Your task to perform on an android device: Look up the best rated headphones on Aliexpress Image 0: 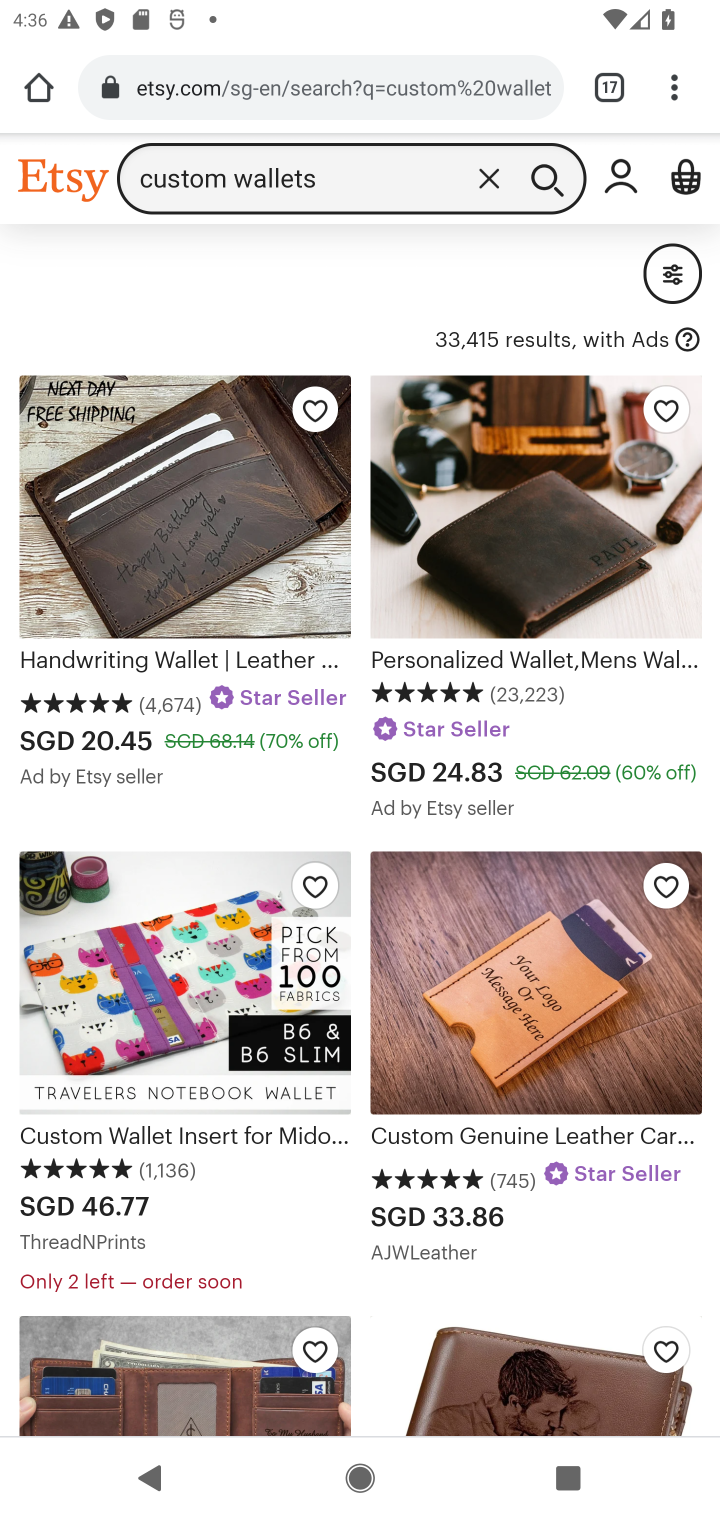
Step 0: press home button
Your task to perform on an android device: Look up the best rated headphones on Aliexpress Image 1: 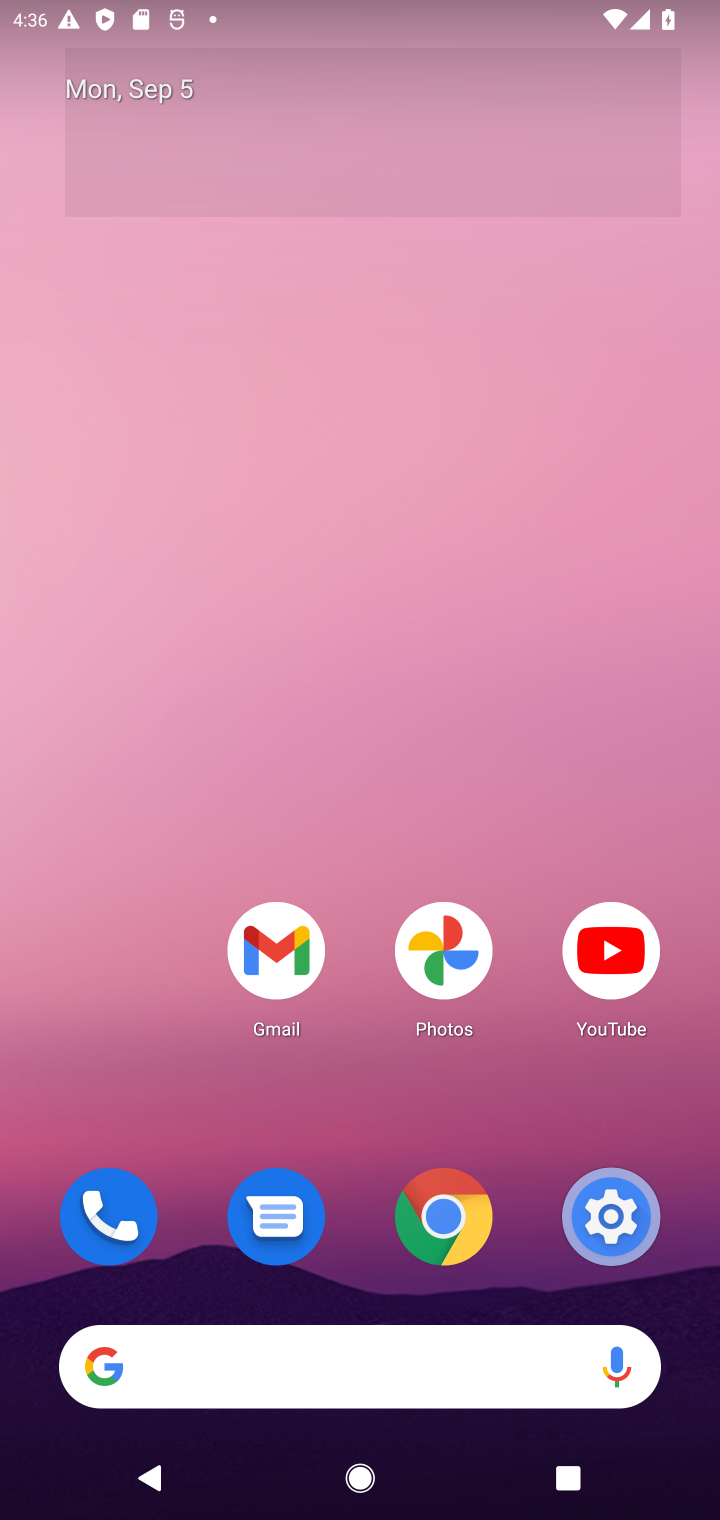
Step 1: click (103, 1367)
Your task to perform on an android device: Look up the best rated headphones on Aliexpress Image 2: 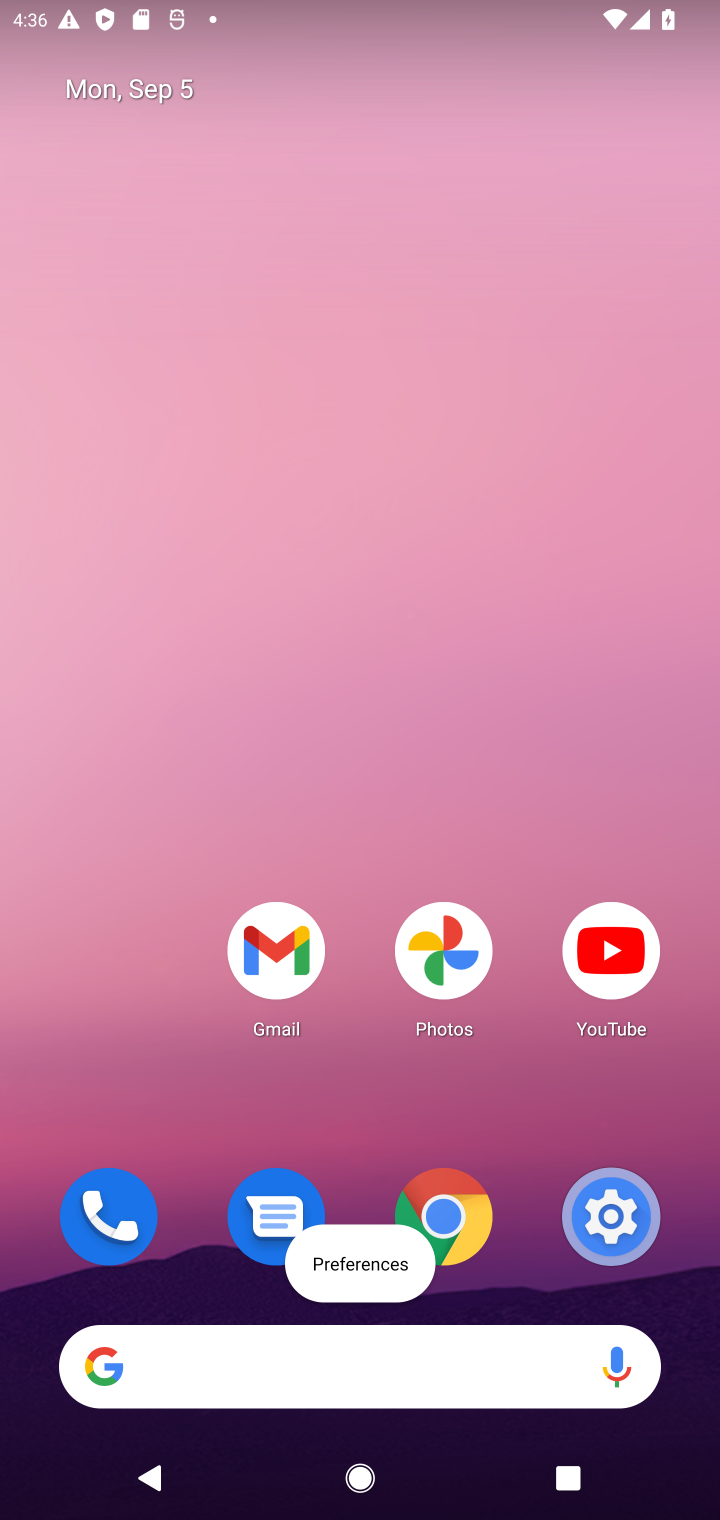
Step 2: click (95, 1382)
Your task to perform on an android device: Look up the best rated headphones on Aliexpress Image 3: 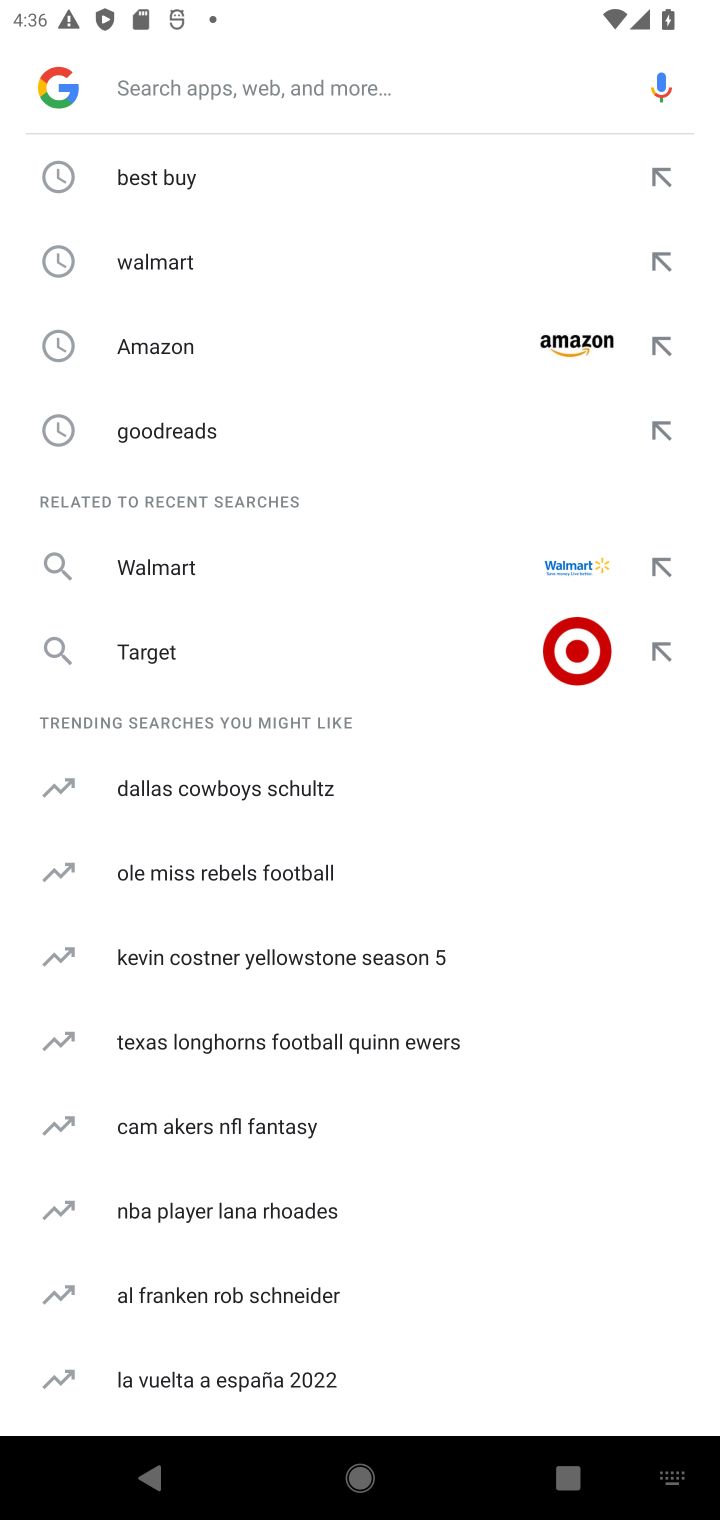
Step 3: type "Aliexpress"
Your task to perform on an android device: Look up the best rated headphones on Aliexpress Image 4: 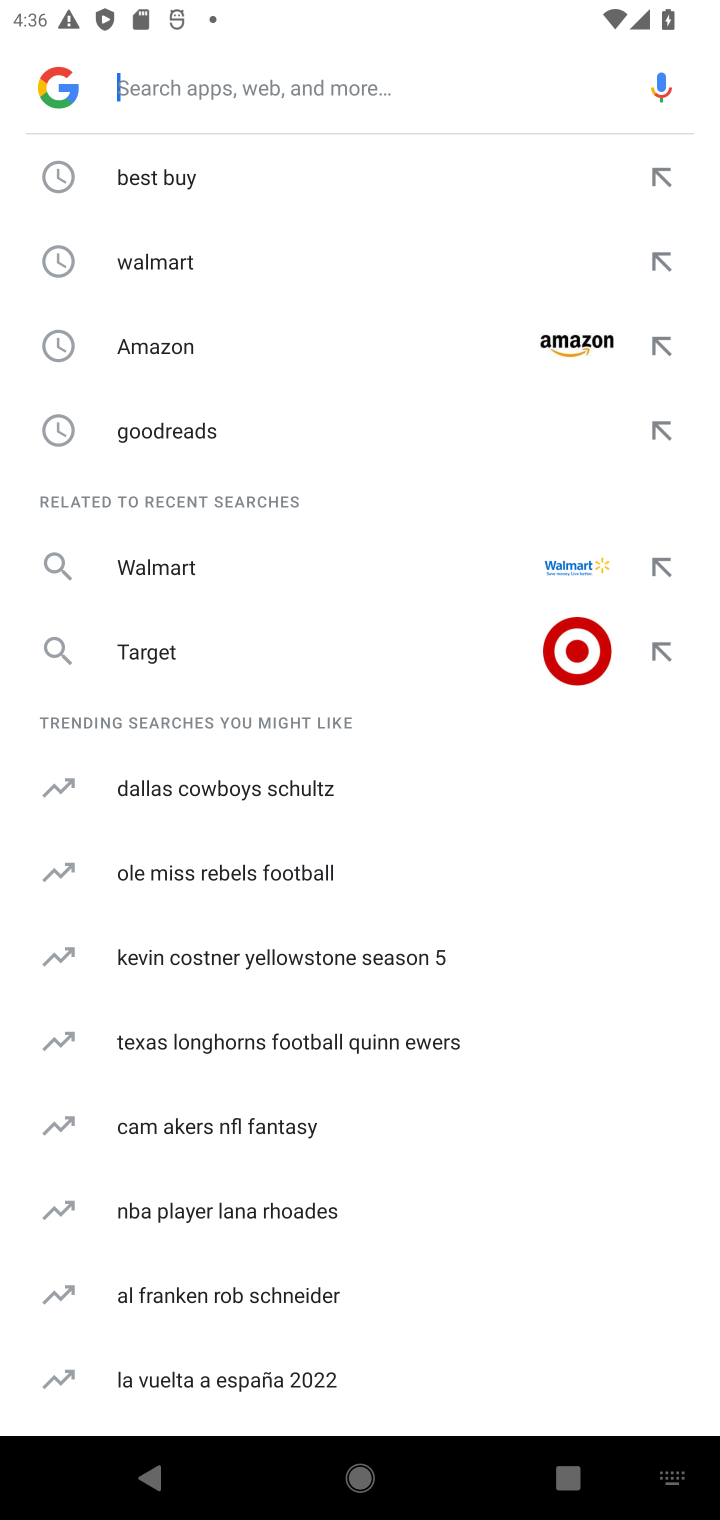
Step 4: click (201, 80)
Your task to perform on an android device: Look up the best rated headphones on Aliexpress Image 5: 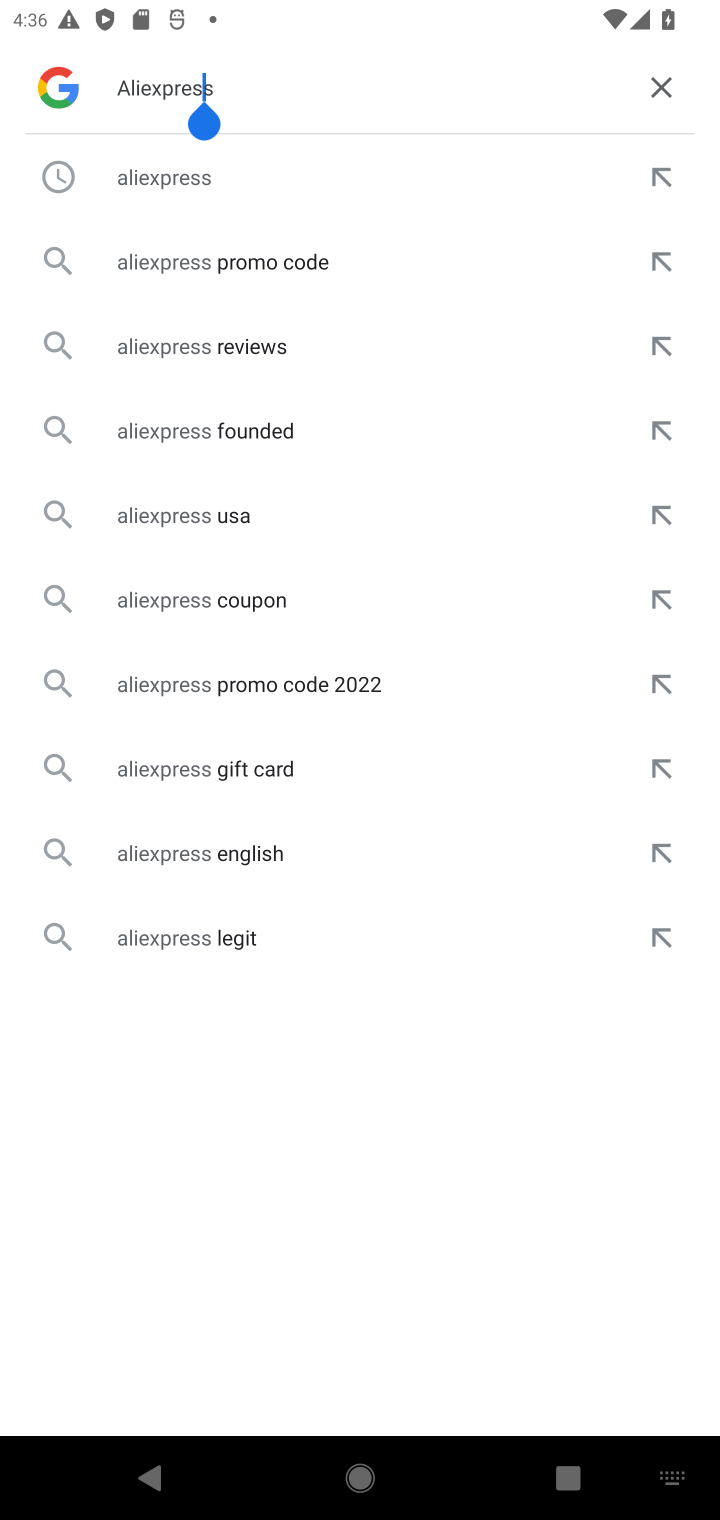
Step 5: press enter
Your task to perform on an android device: Look up the best rated headphones on Aliexpress Image 6: 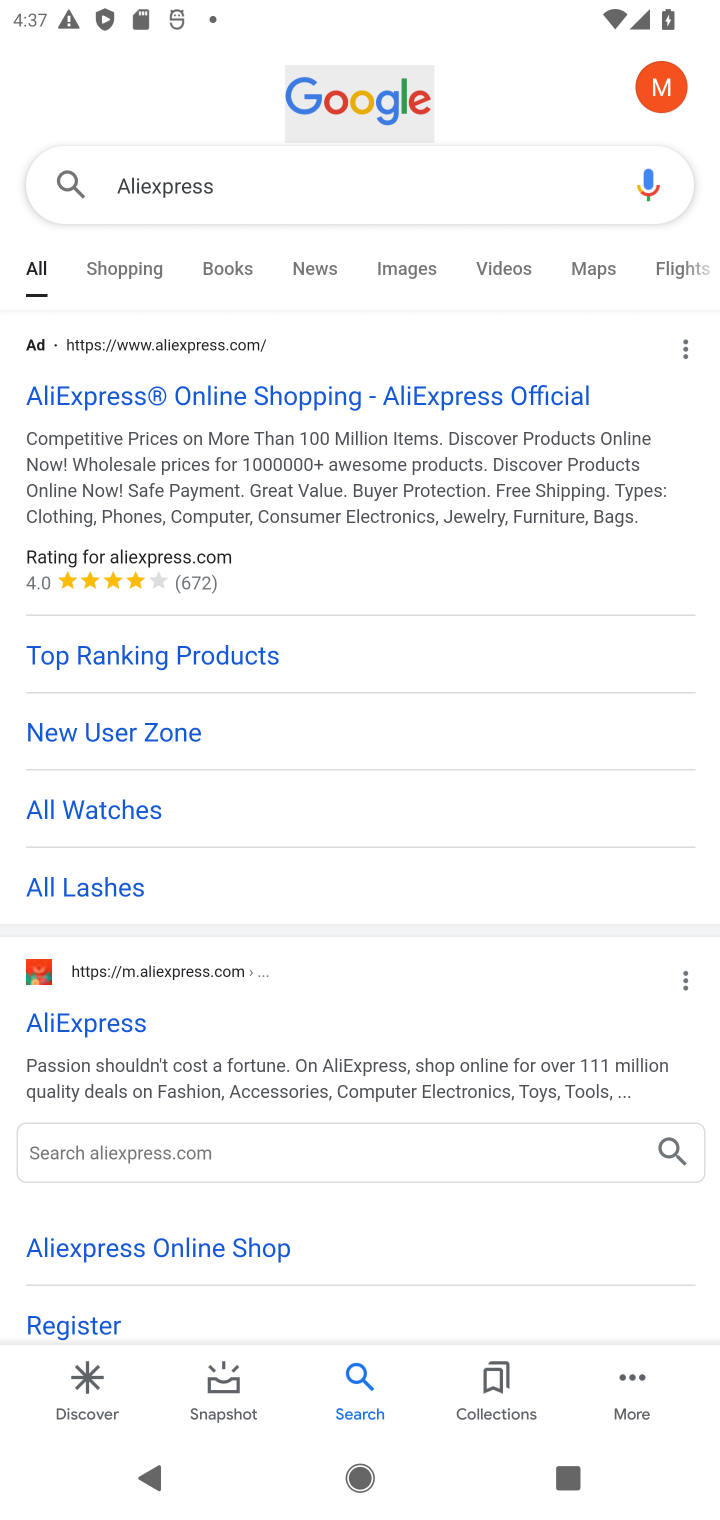
Step 6: click (78, 1028)
Your task to perform on an android device: Look up the best rated headphones on Aliexpress Image 7: 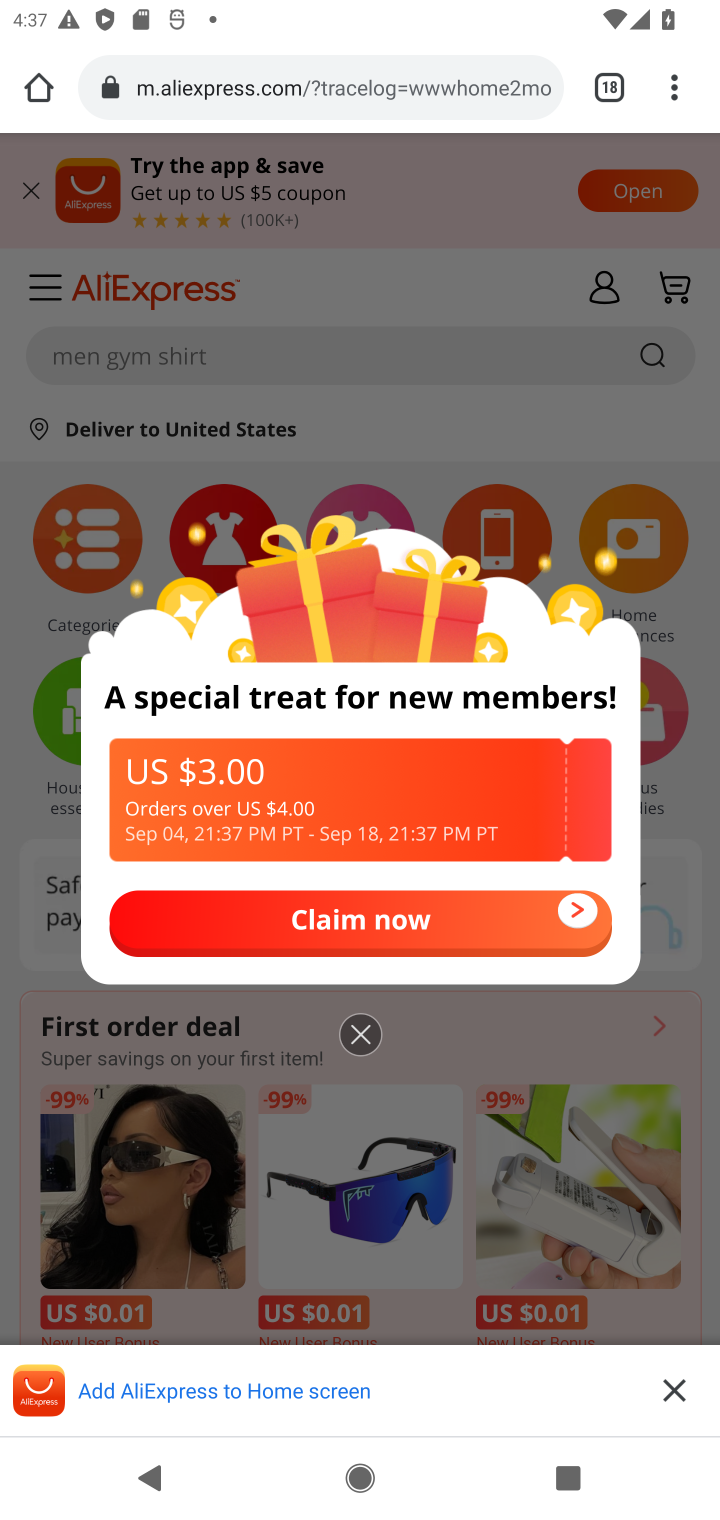
Step 7: click (349, 1035)
Your task to perform on an android device: Look up the best rated headphones on Aliexpress Image 8: 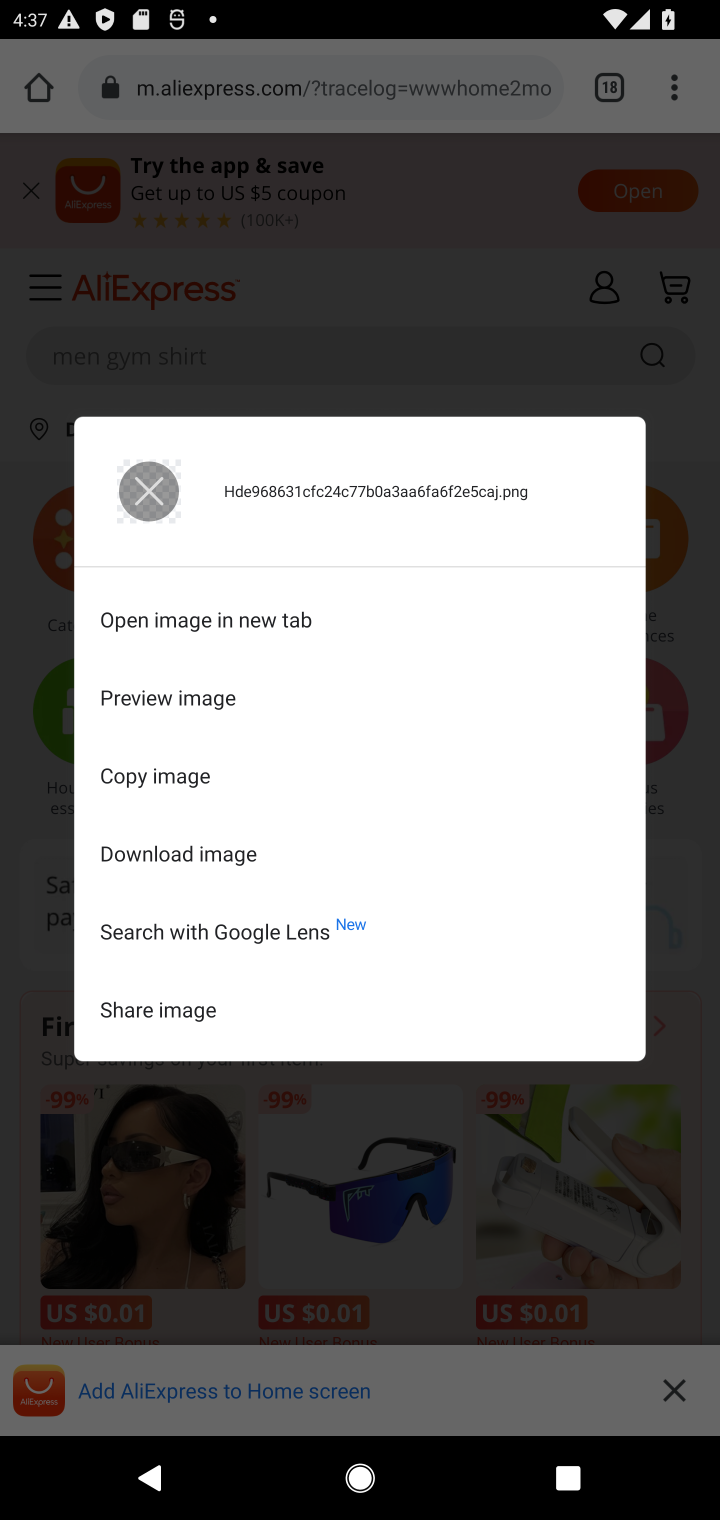
Step 8: click (154, 493)
Your task to perform on an android device: Look up the best rated headphones on Aliexpress Image 9: 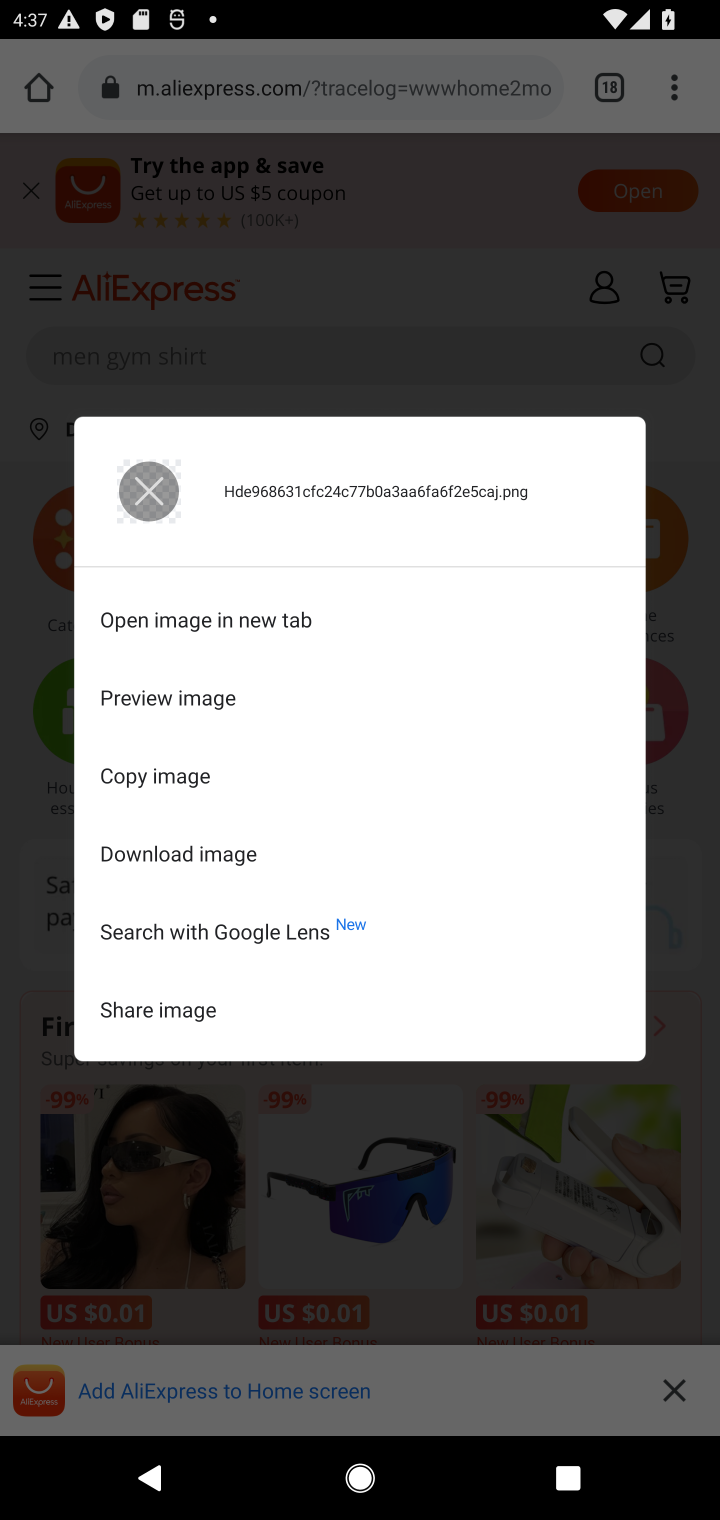
Step 9: press back button
Your task to perform on an android device: Look up the best rated headphones on Aliexpress Image 10: 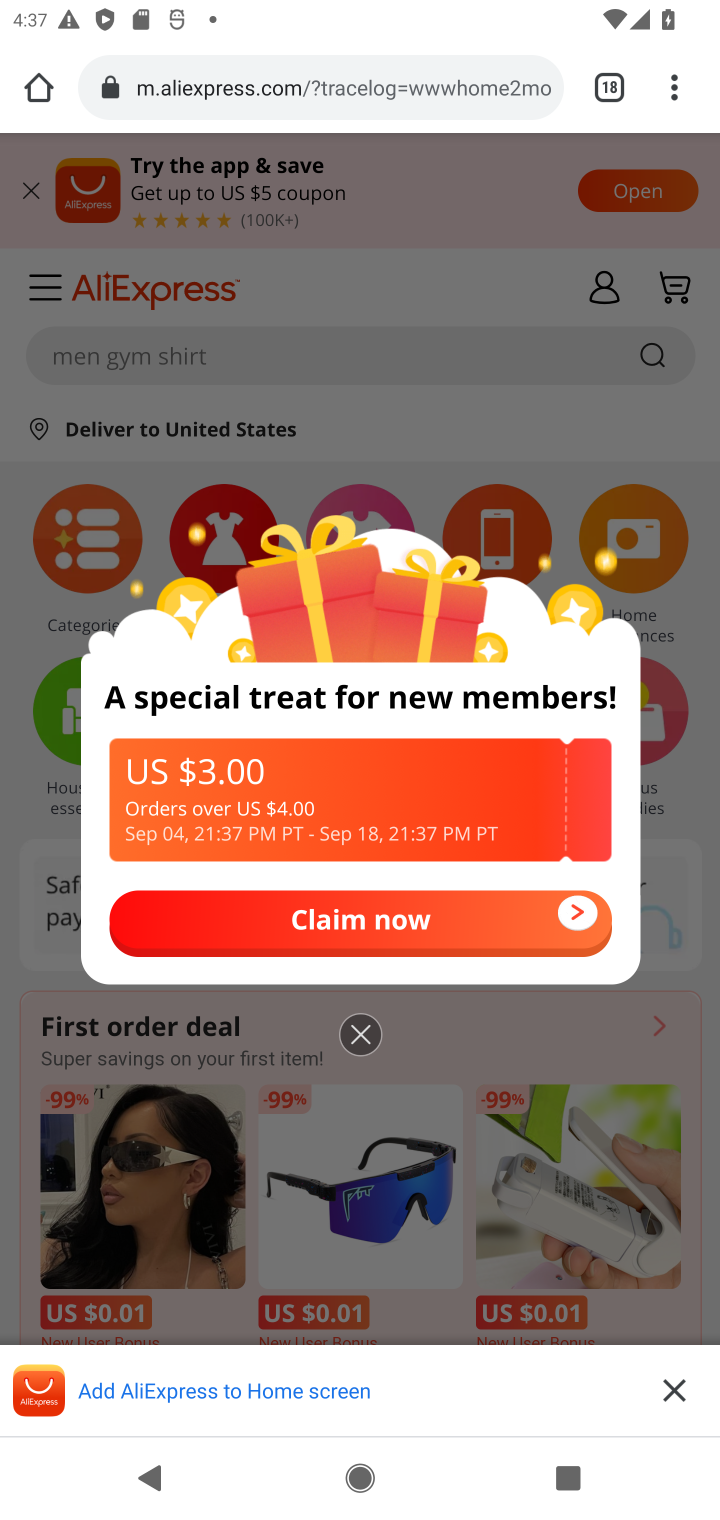
Step 10: click (356, 1040)
Your task to perform on an android device: Look up the best rated headphones on Aliexpress Image 11: 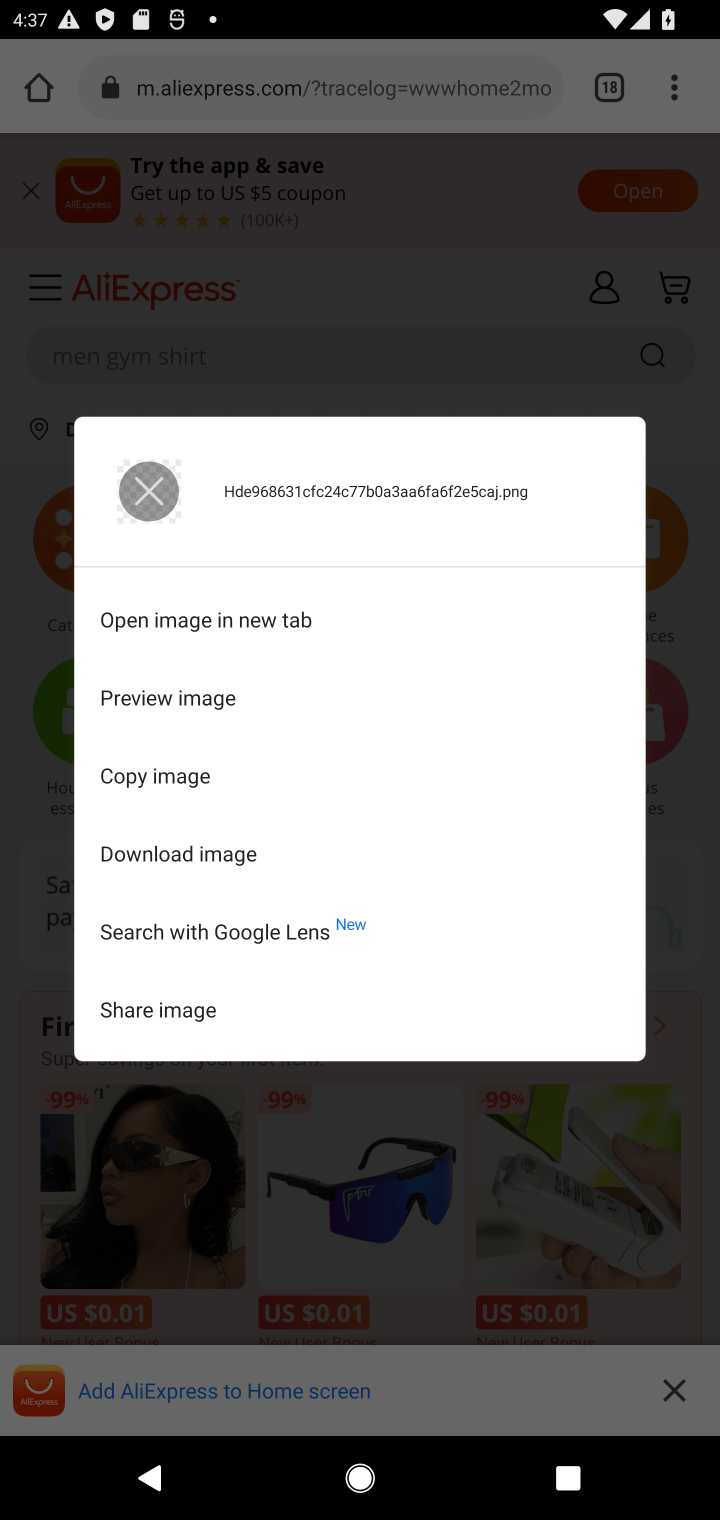
Step 11: click (466, 1161)
Your task to perform on an android device: Look up the best rated headphones on Aliexpress Image 12: 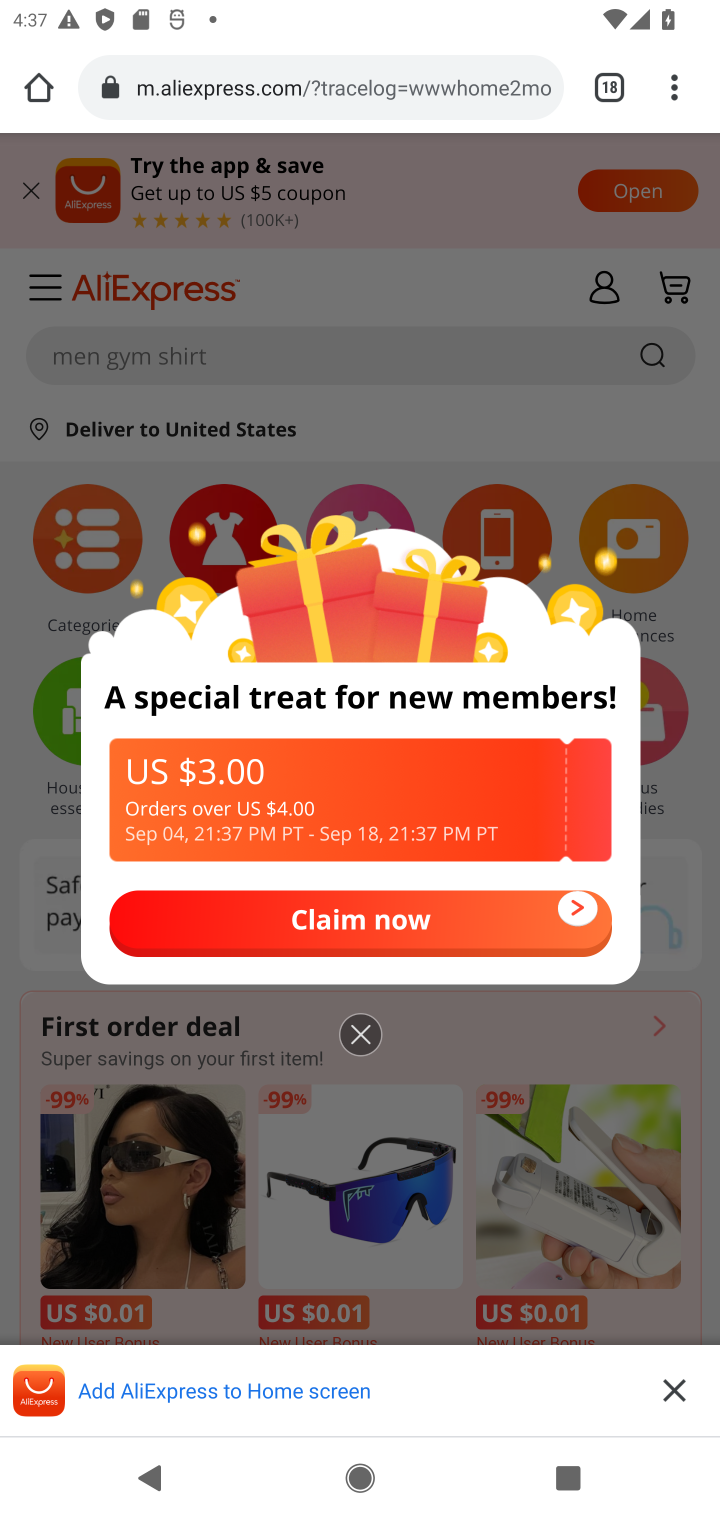
Step 12: click (358, 1043)
Your task to perform on an android device: Look up the best rated headphones on Aliexpress Image 13: 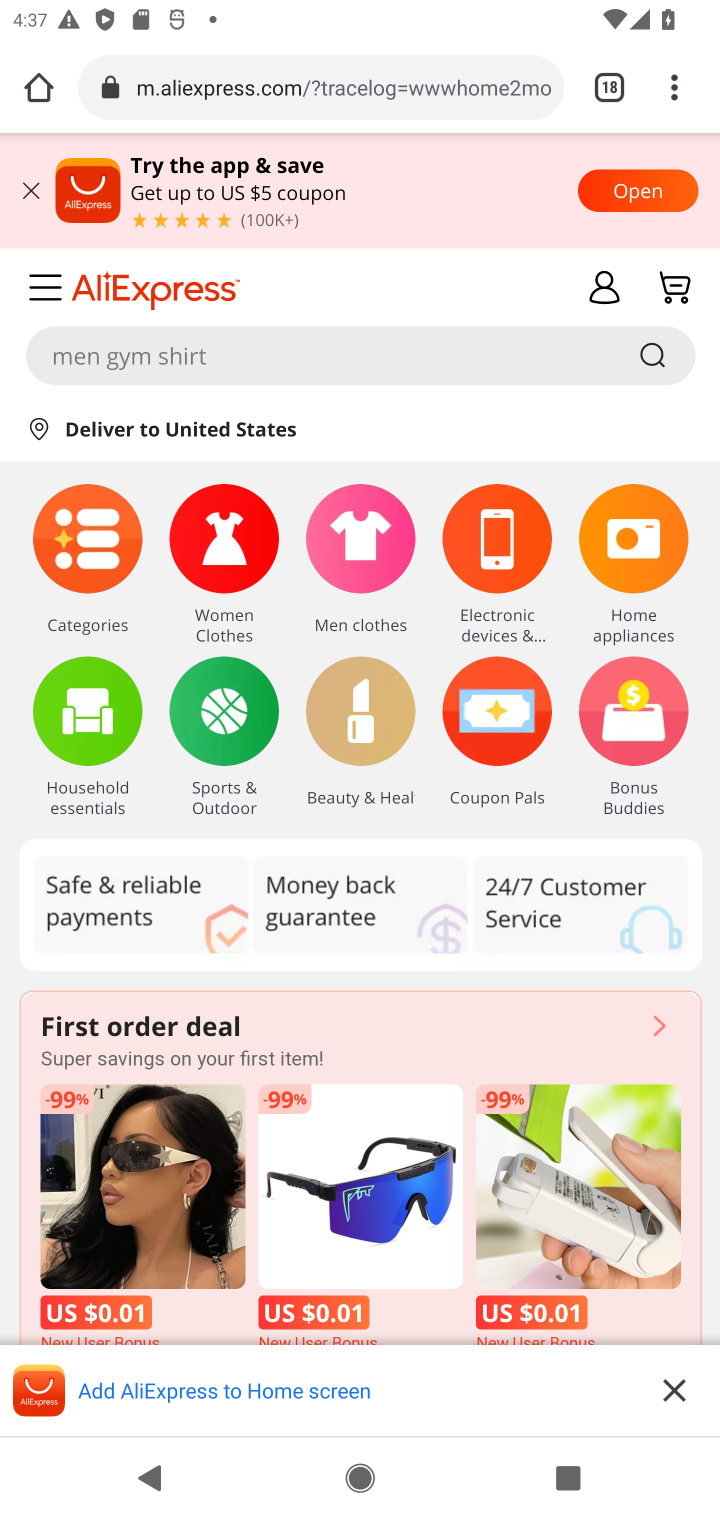
Step 13: click (225, 357)
Your task to perform on an android device: Look up the best rated headphones on Aliexpress Image 14: 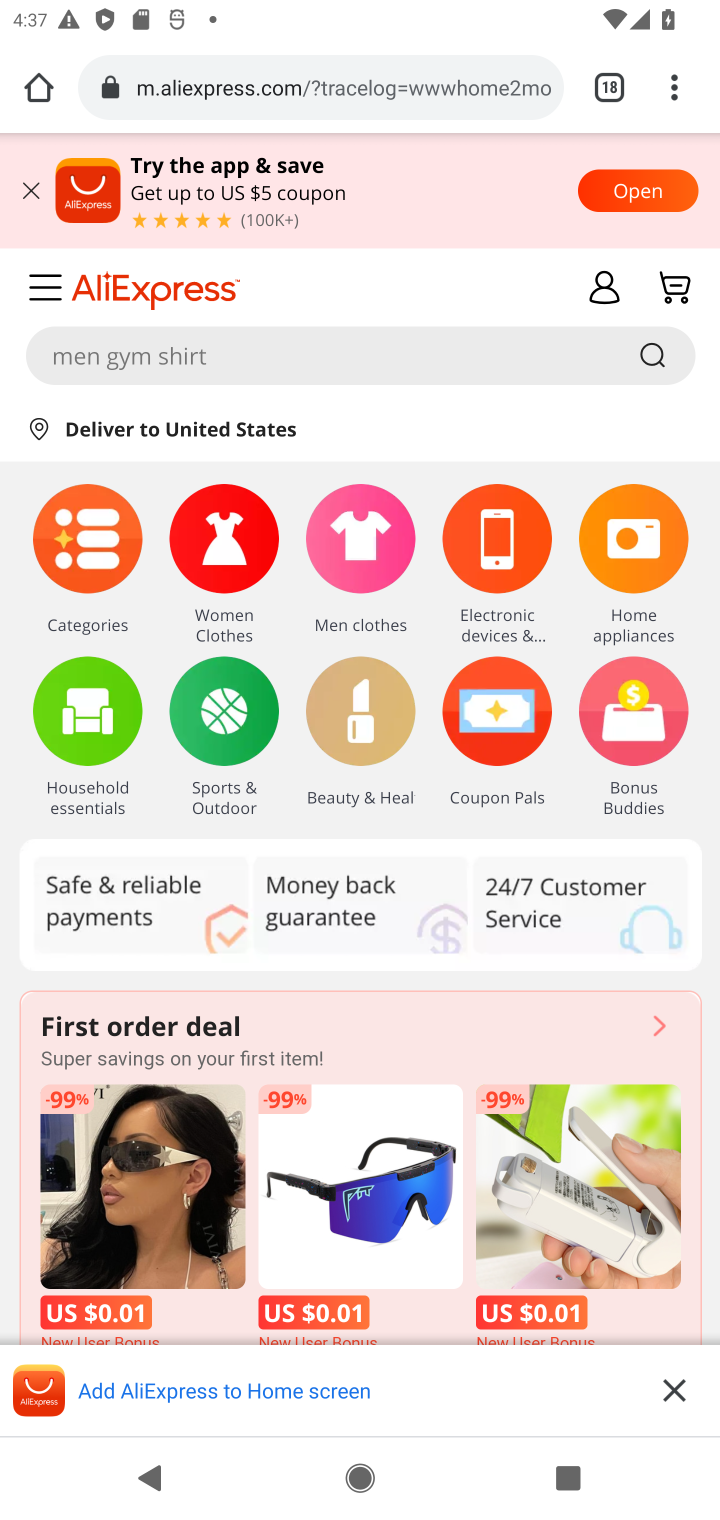
Step 14: click (481, 348)
Your task to perform on an android device: Look up the best rated headphones on Aliexpress Image 15: 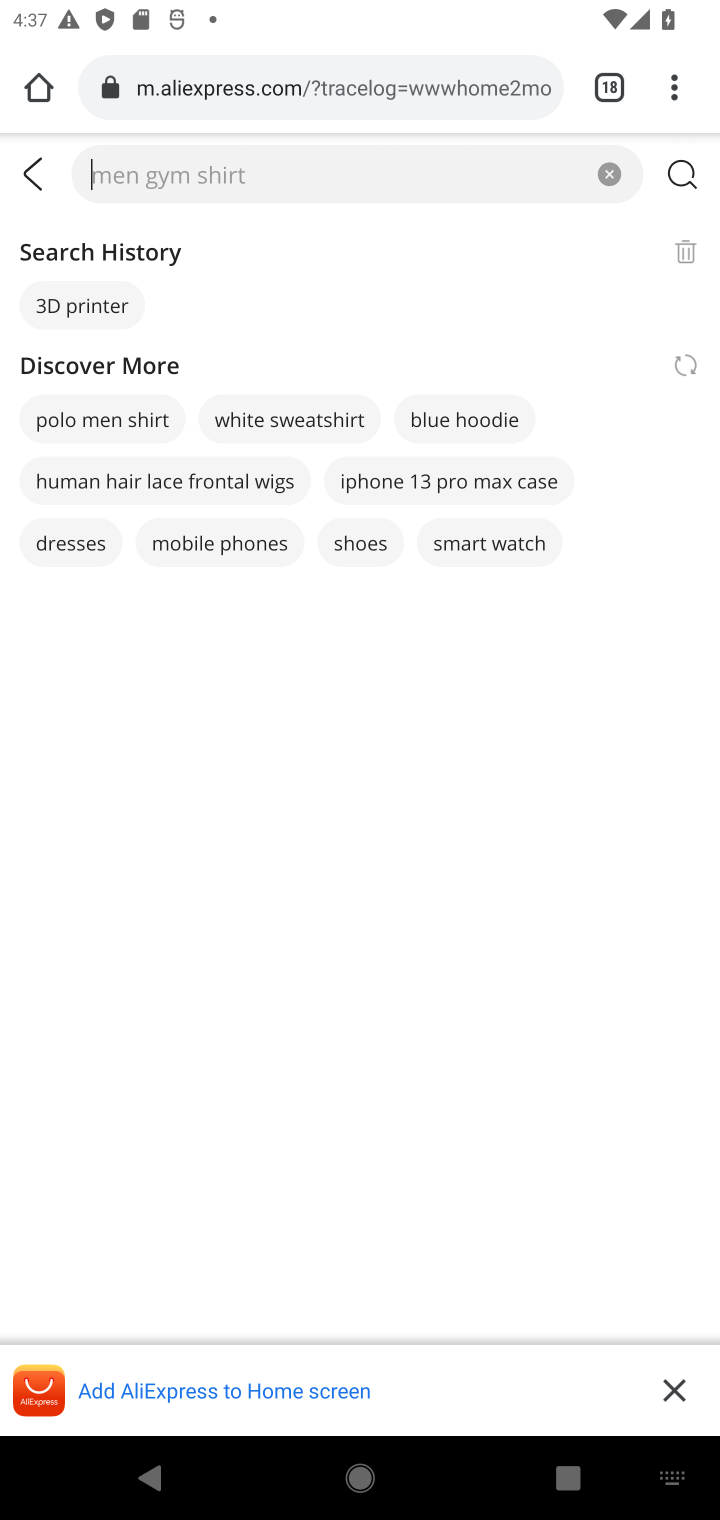
Step 15: click (206, 361)
Your task to perform on an android device: Look up the best rated headphones on Aliexpress Image 16: 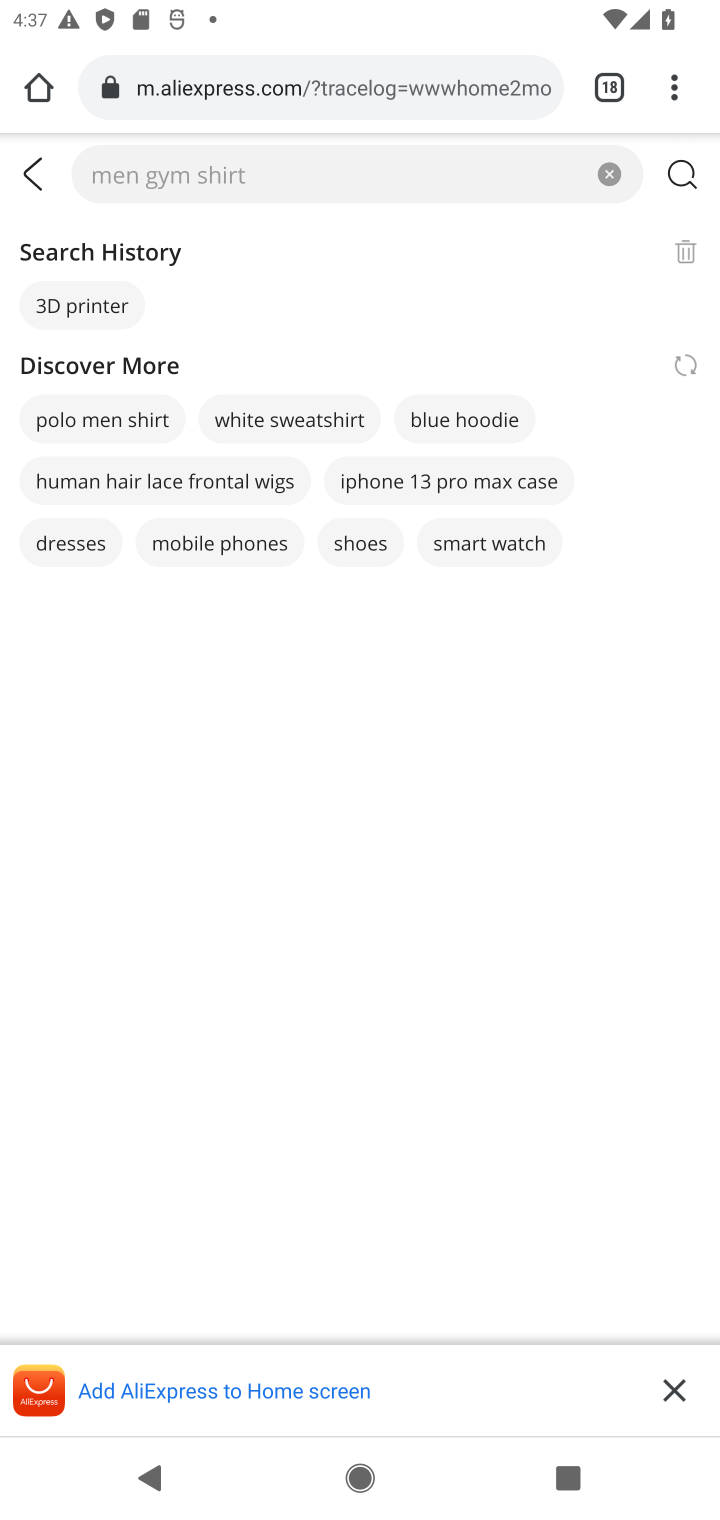
Step 16: click (138, 180)
Your task to perform on an android device: Look up the best rated headphones on Aliexpress Image 17: 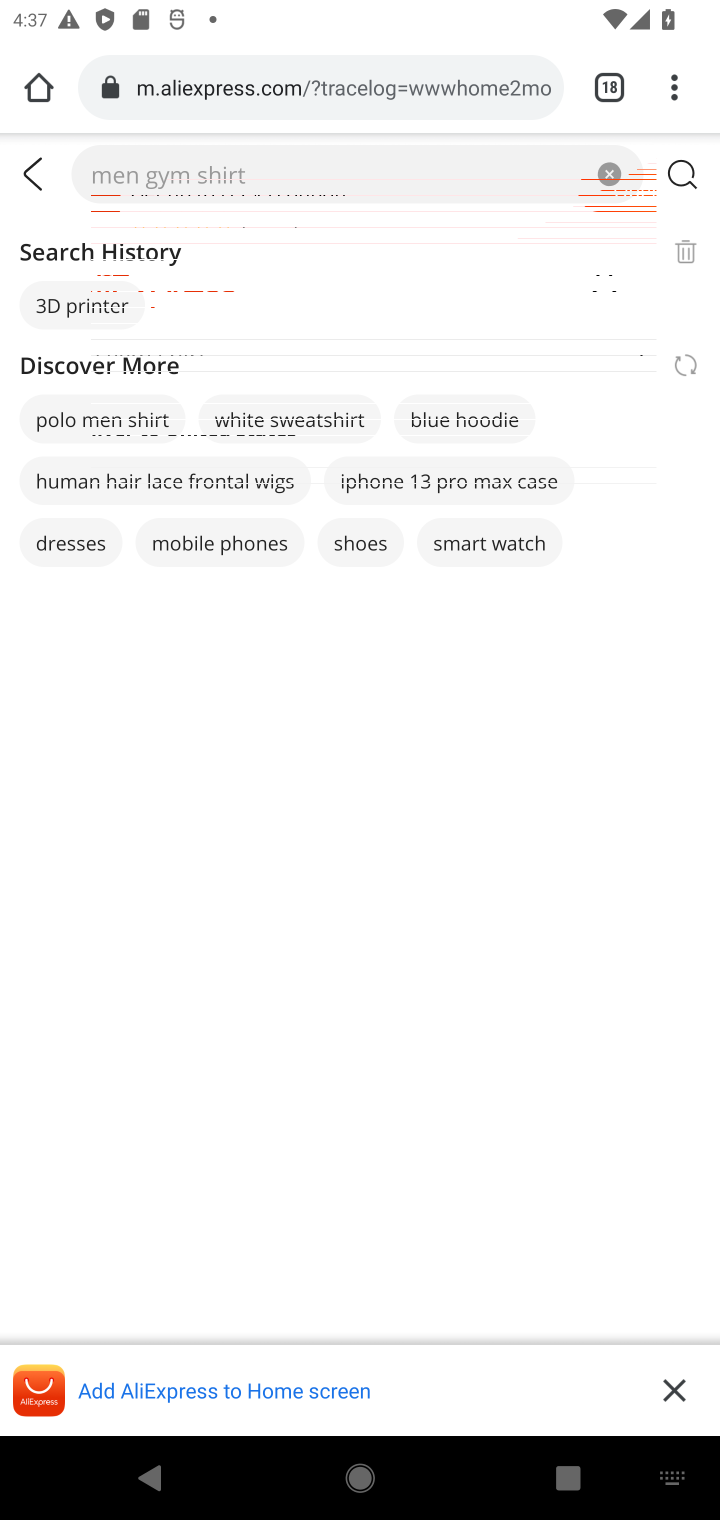
Step 17: type "headphones"
Your task to perform on an android device: Look up the best rated headphones on Aliexpress Image 18: 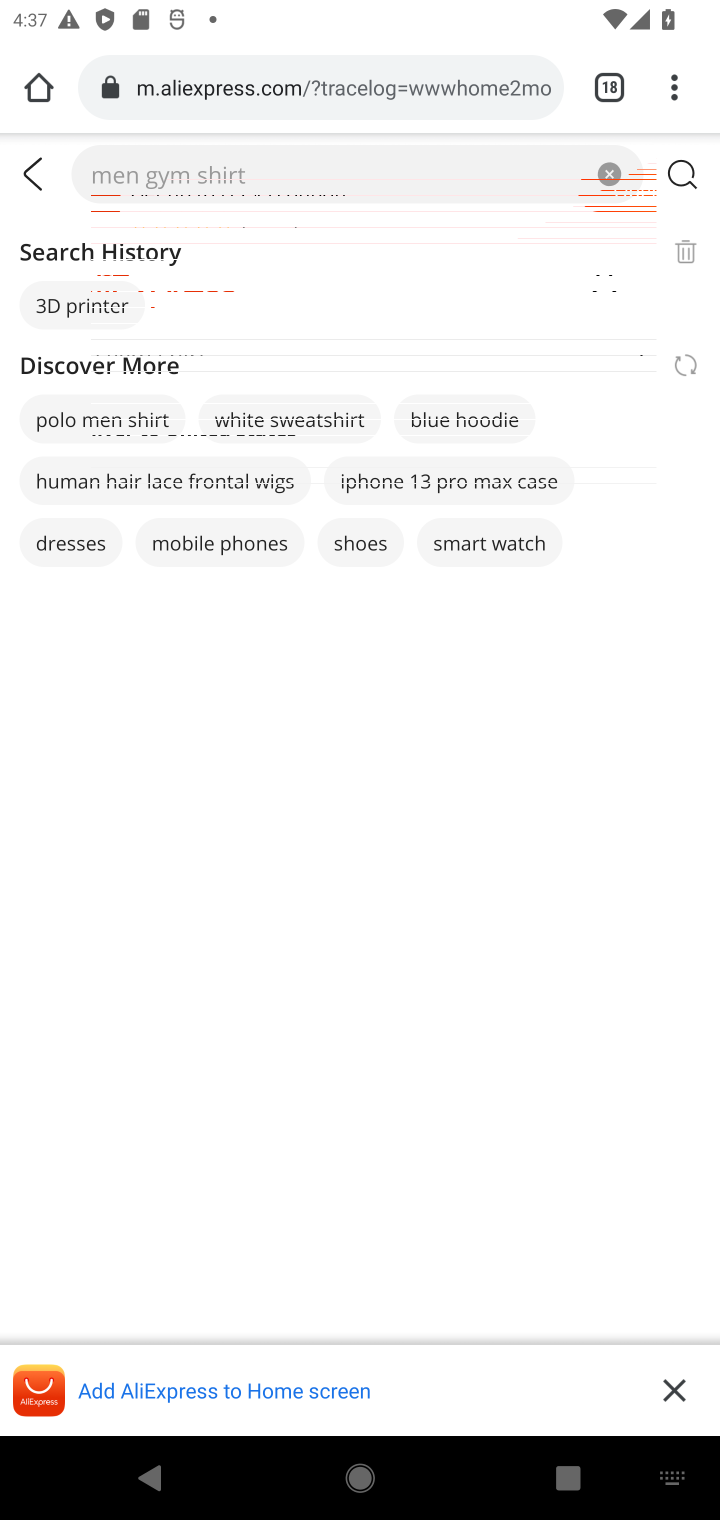
Step 18: click (151, 177)
Your task to perform on an android device: Look up the best rated headphones on Aliexpress Image 19: 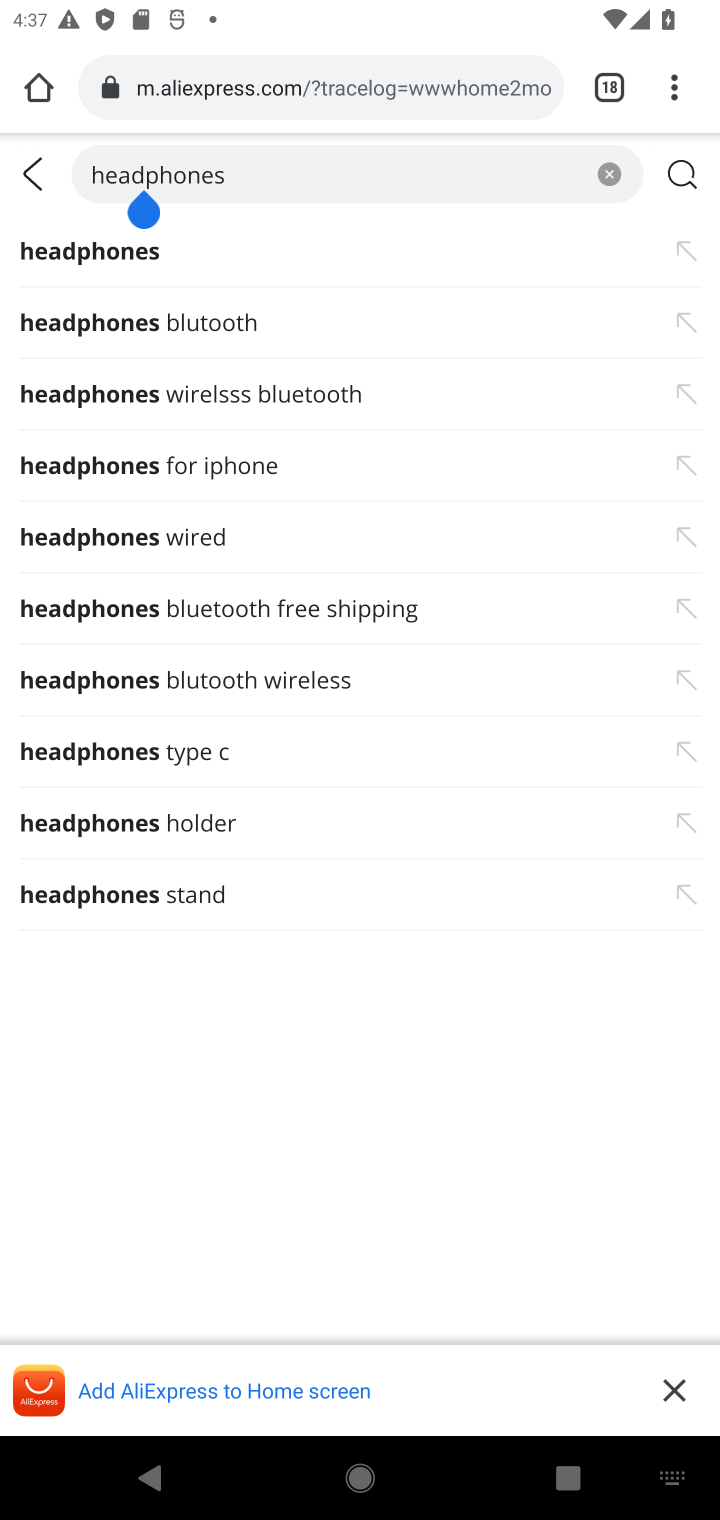
Step 19: press enter
Your task to perform on an android device: Look up the best rated headphones on Aliexpress Image 20: 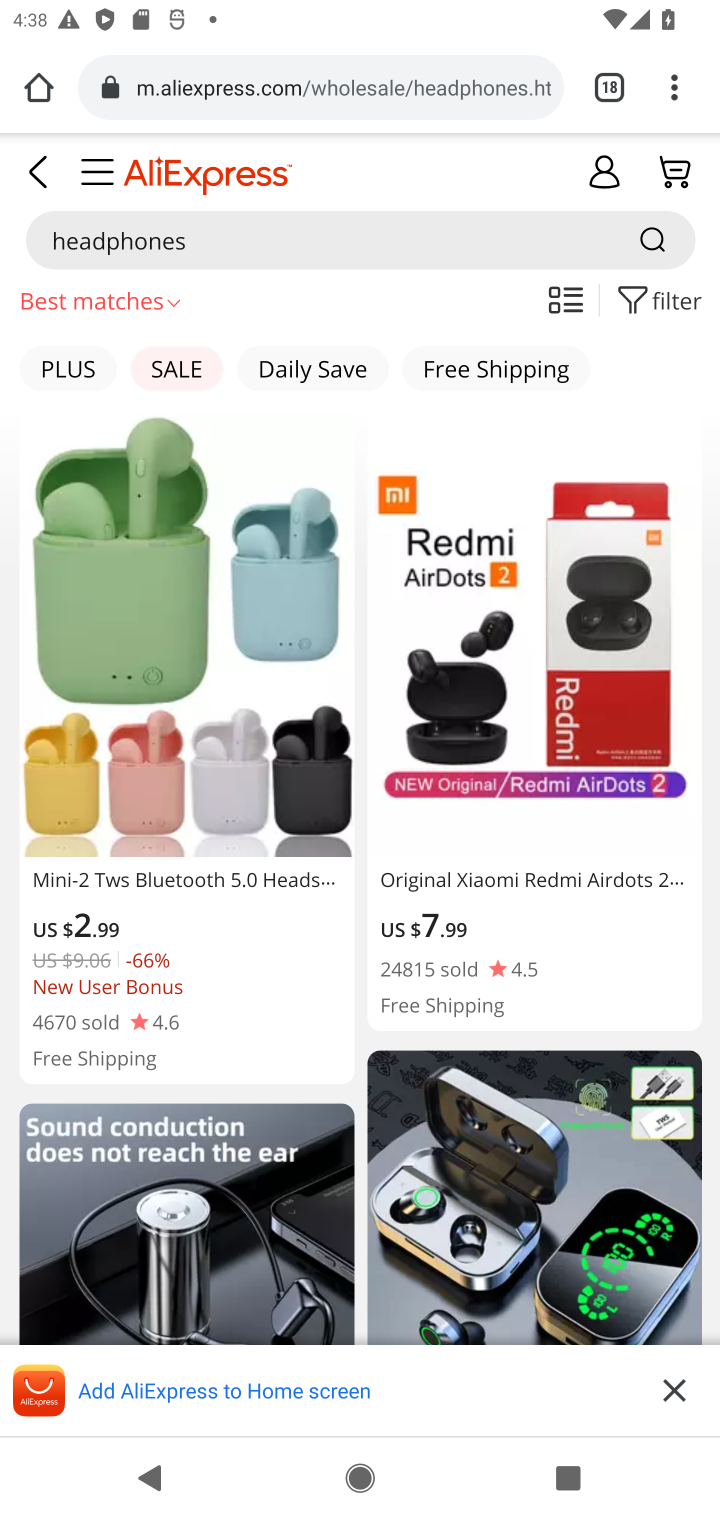
Step 20: click (656, 294)
Your task to perform on an android device: Look up the best rated headphones on Aliexpress Image 21: 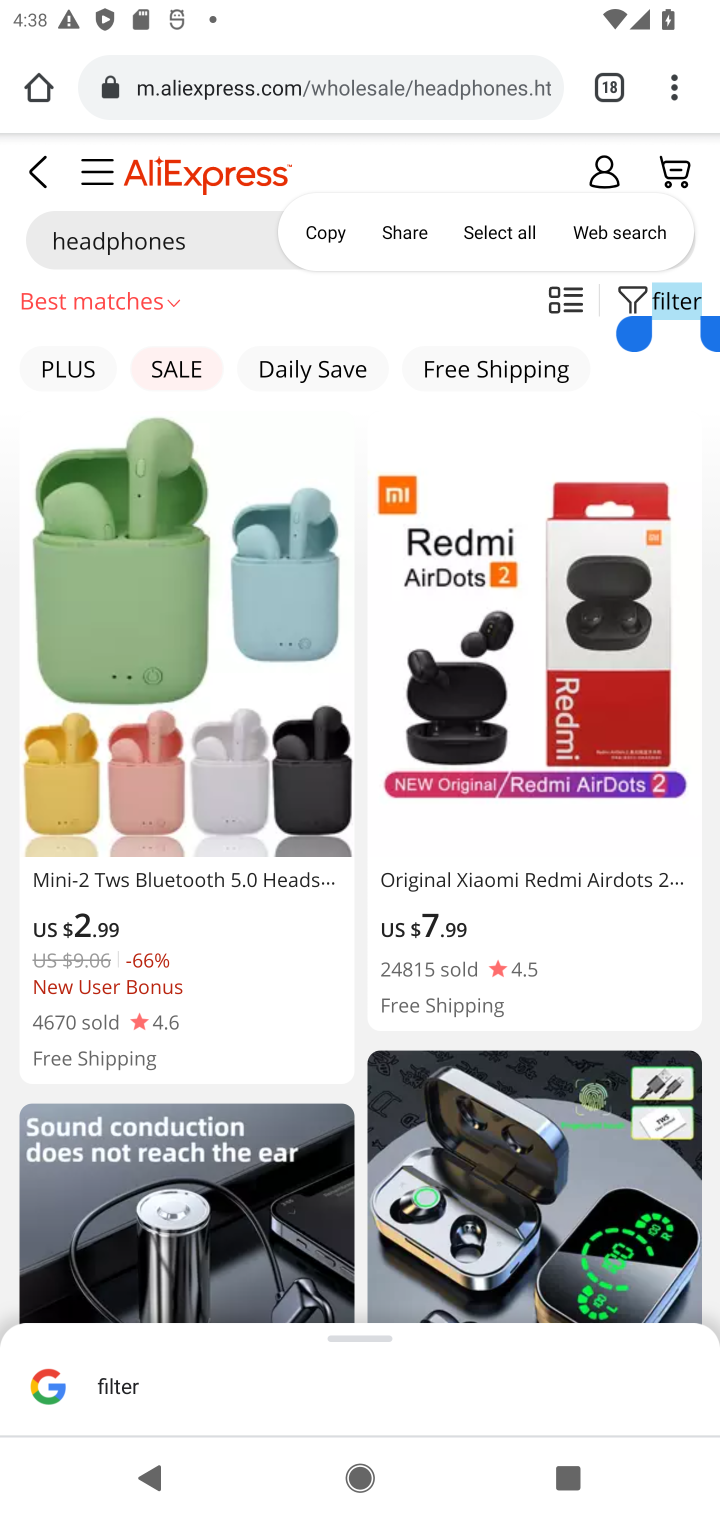
Step 21: click (646, 295)
Your task to perform on an android device: Look up the best rated headphones on Aliexpress Image 22: 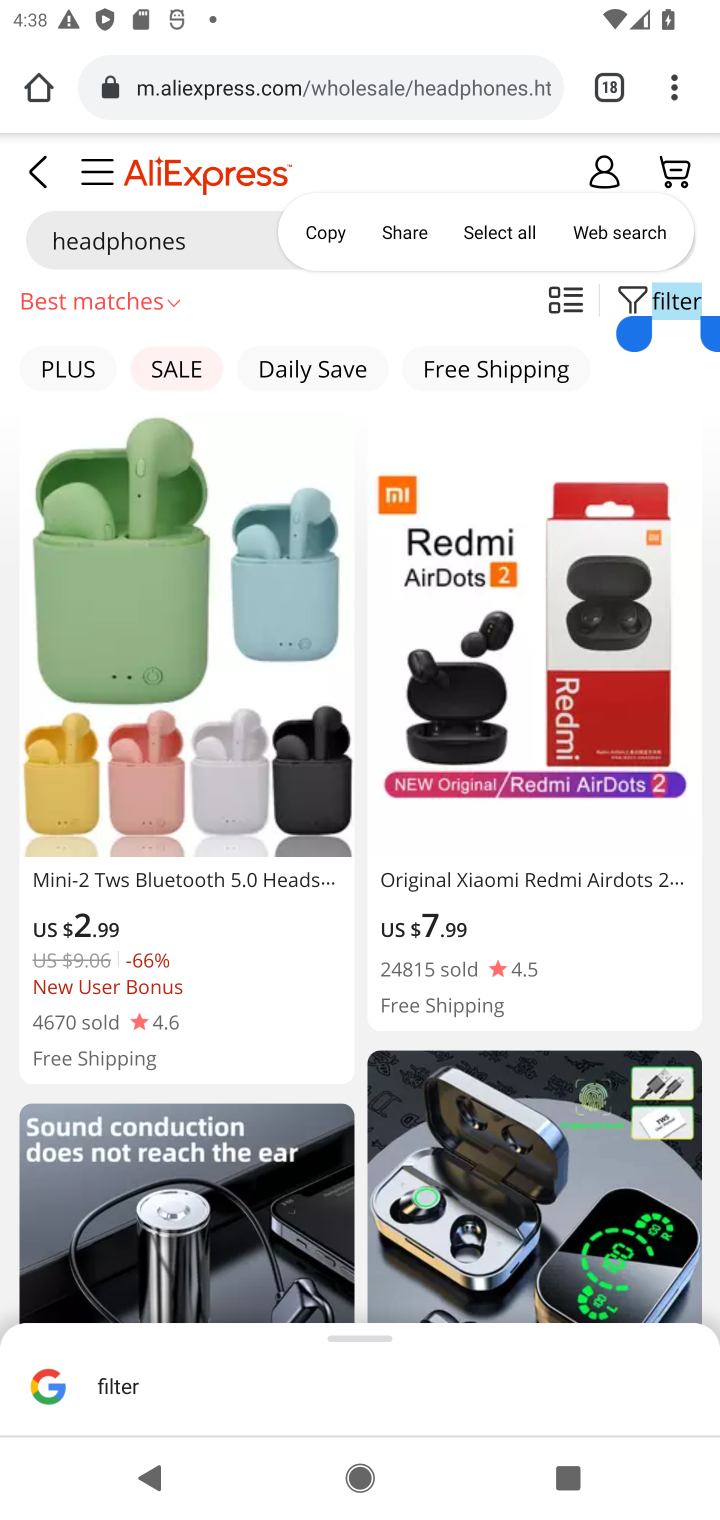
Step 22: click (409, 286)
Your task to perform on an android device: Look up the best rated headphones on Aliexpress Image 23: 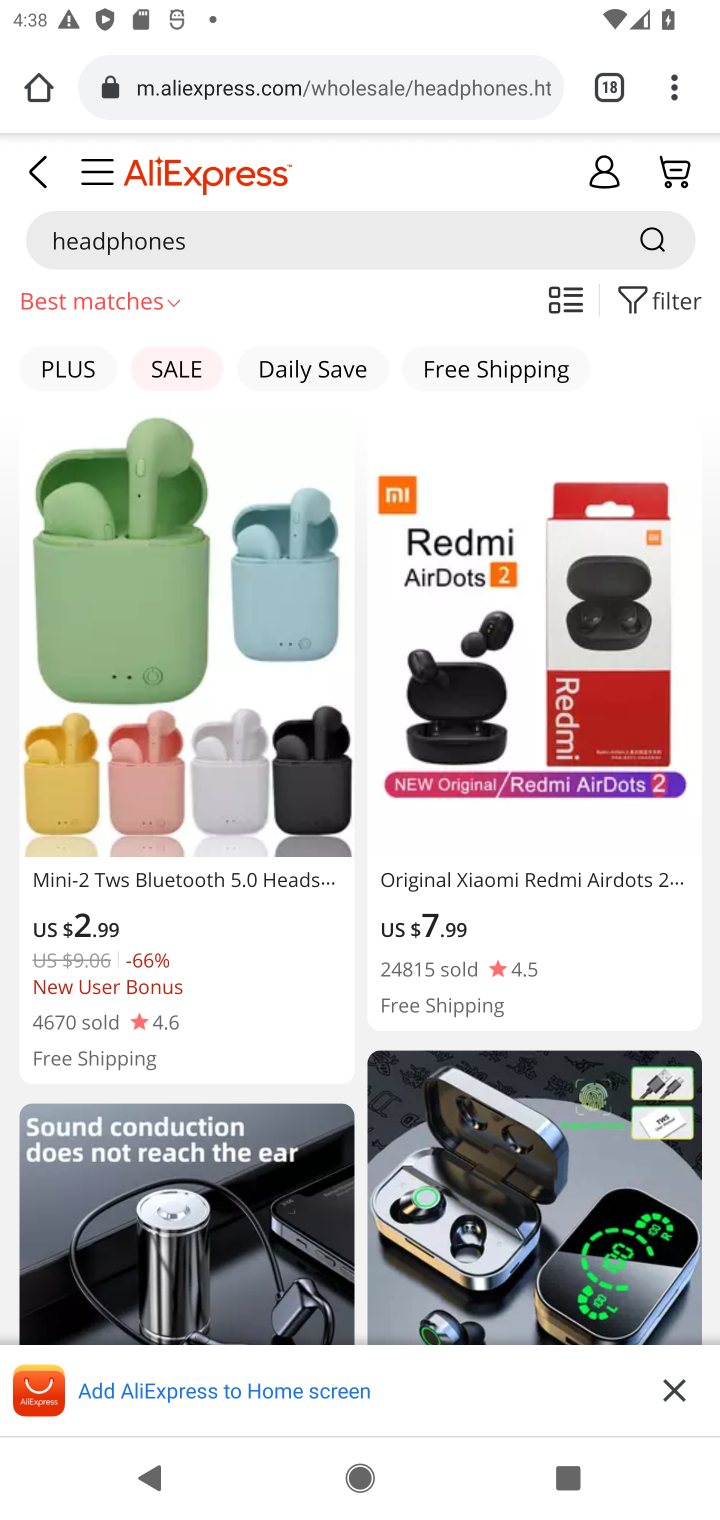
Step 23: click (685, 308)
Your task to perform on an android device: Look up the best rated headphones on Aliexpress Image 24: 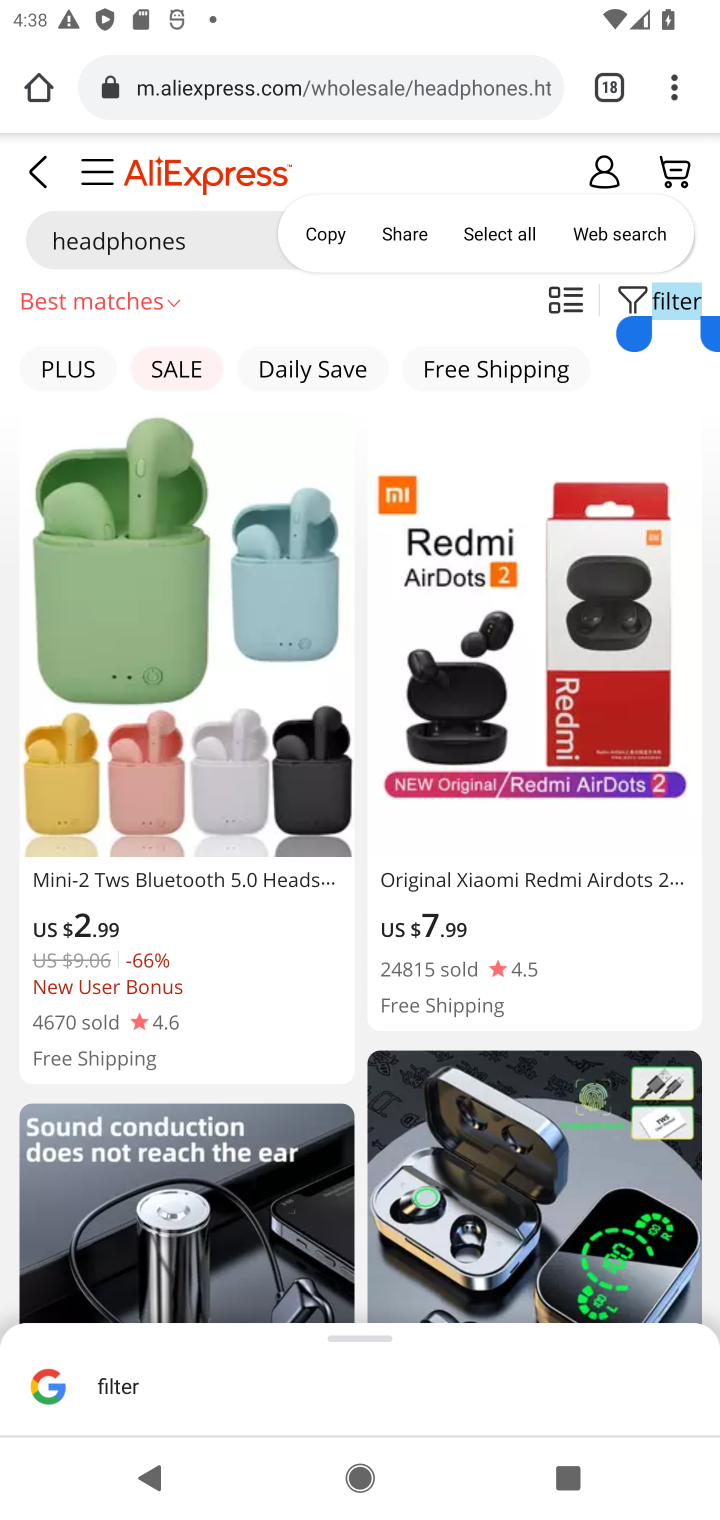
Step 24: click (640, 305)
Your task to perform on an android device: Look up the best rated headphones on Aliexpress Image 25: 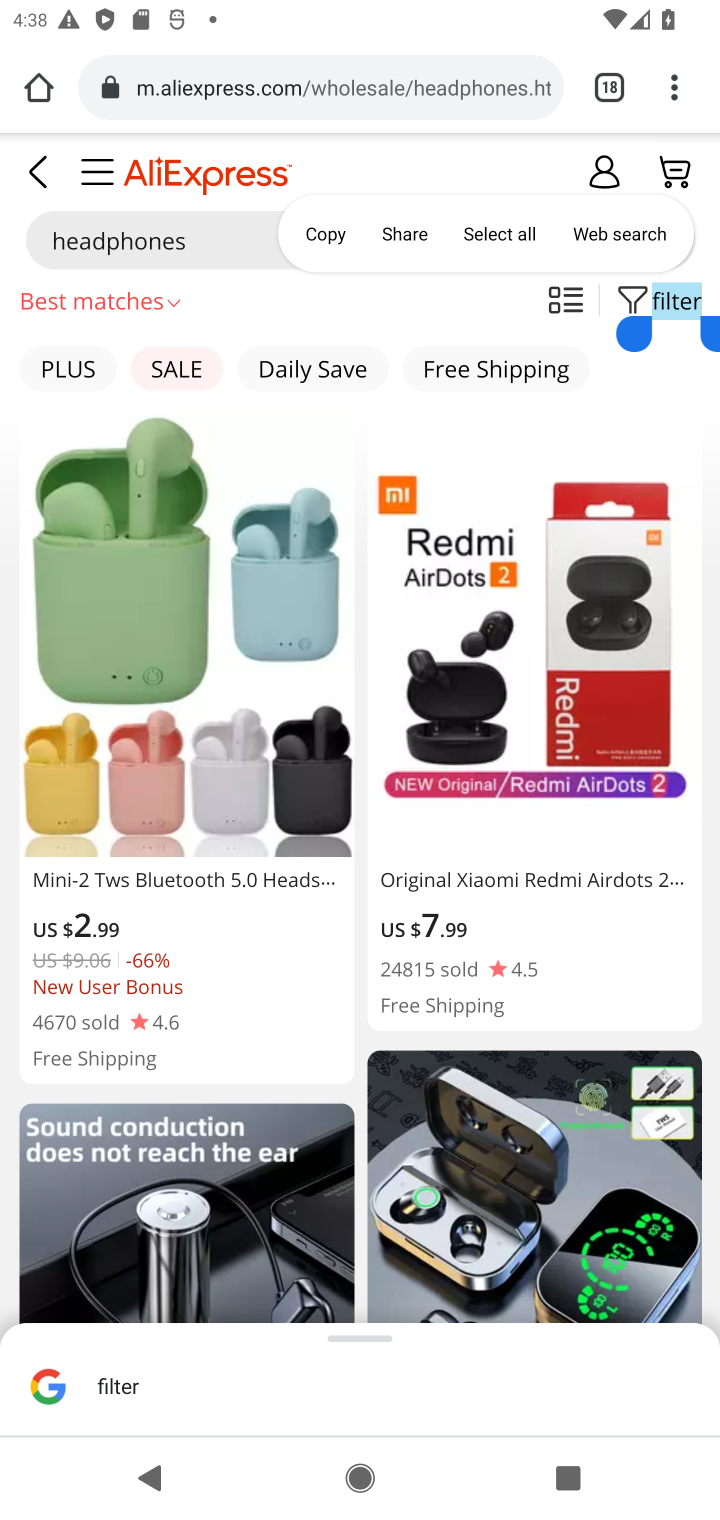
Step 25: click (638, 305)
Your task to perform on an android device: Look up the best rated headphones on Aliexpress Image 26: 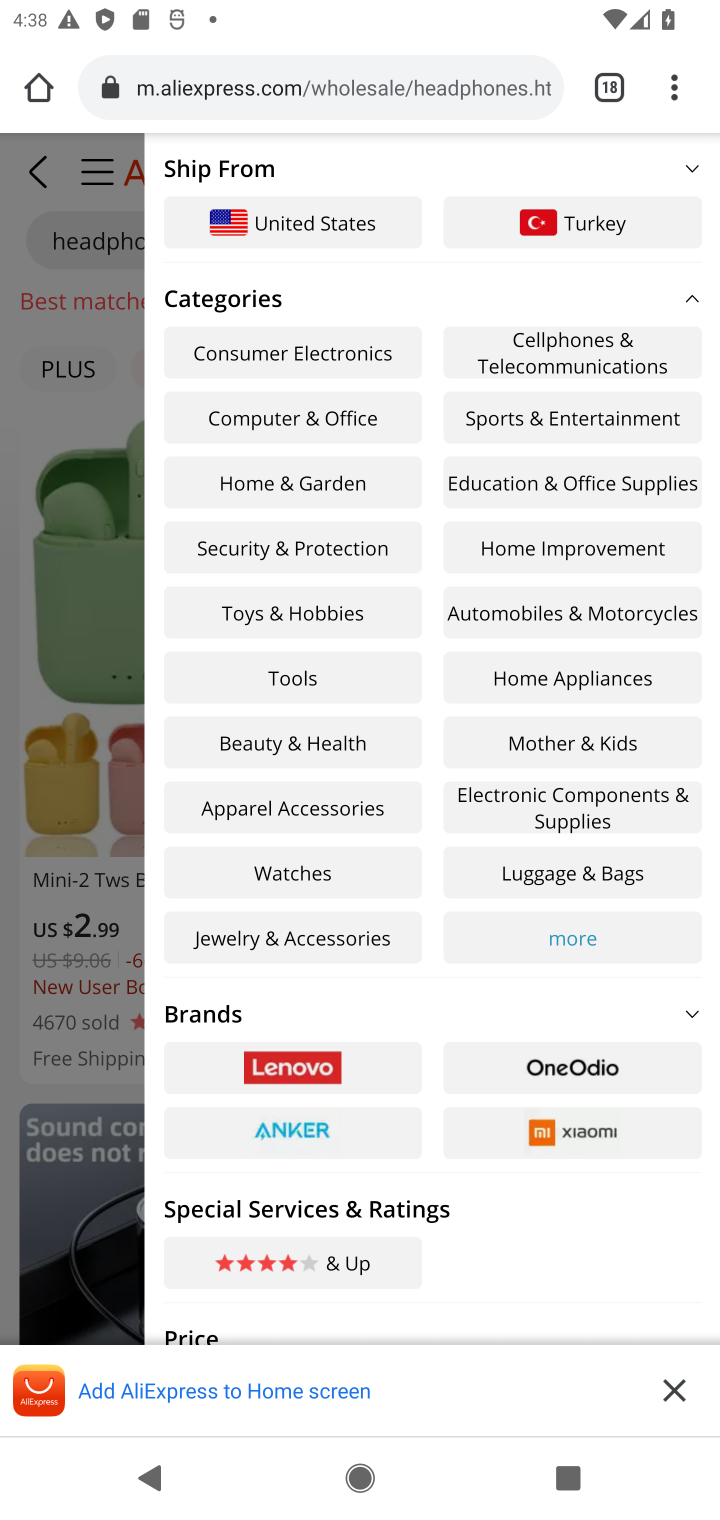
Step 26: click (357, 1261)
Your task to perform on an android device: Look up the best rated headphones on Aliexpress Image 27: 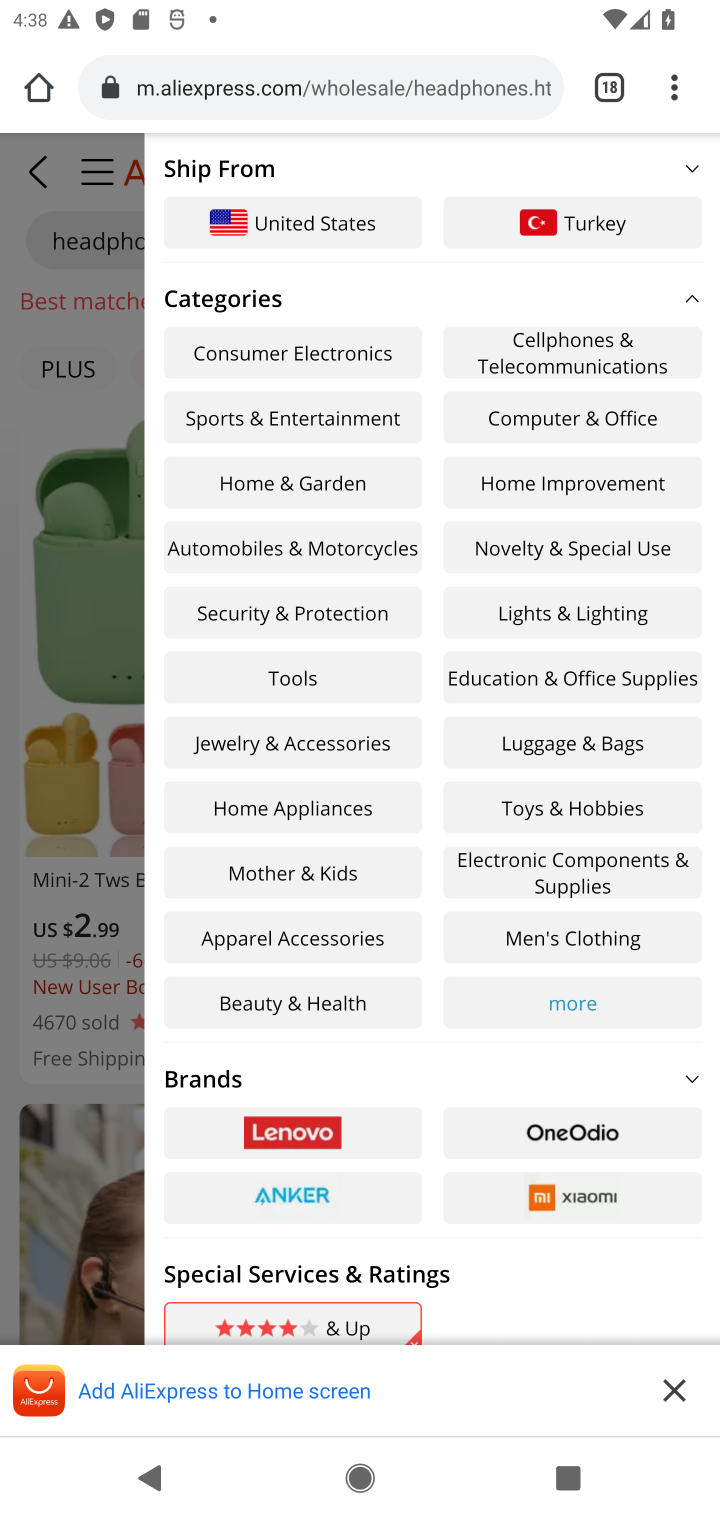
Step 27: click (679, 1390)
Your task to perform on an android device: Look up the best rated headphones on Aliexpress Image 28: 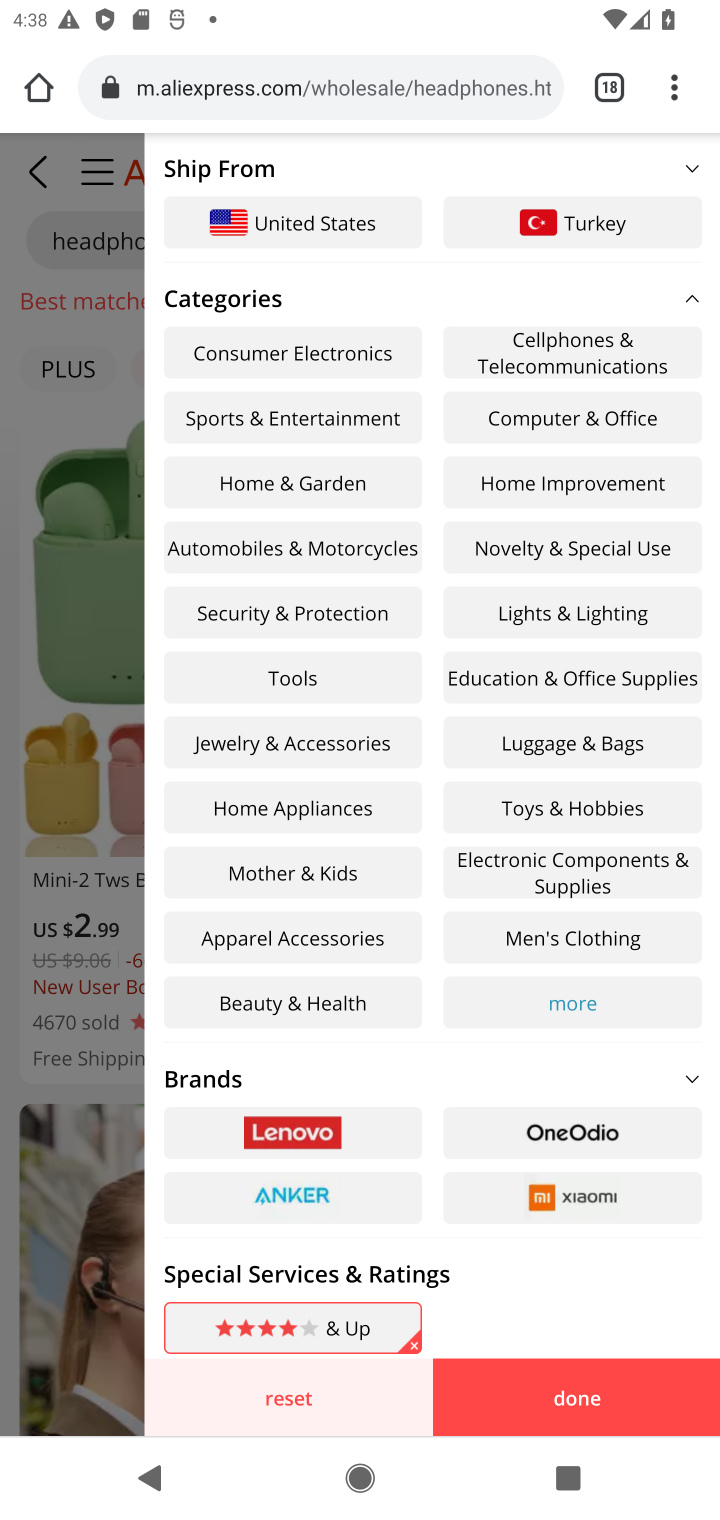
Step 28: click (578, 1398)
Your task to perform on an android device: Look up the best rated headphones on Aliexpress Image 29: 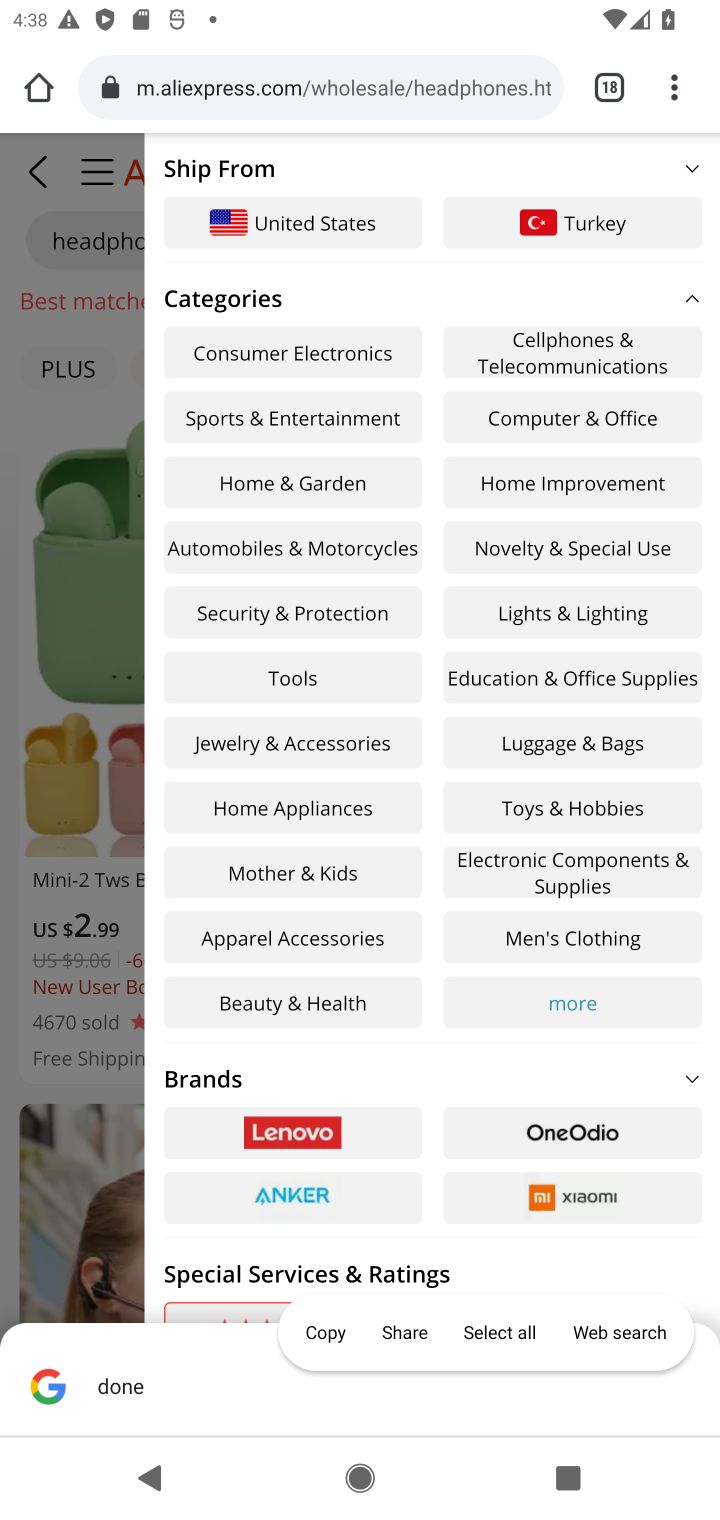
Step 29: click (238, 1249)
Your task to perform on an android device: Look up the best rated headphones on Aliexpress Image 30: 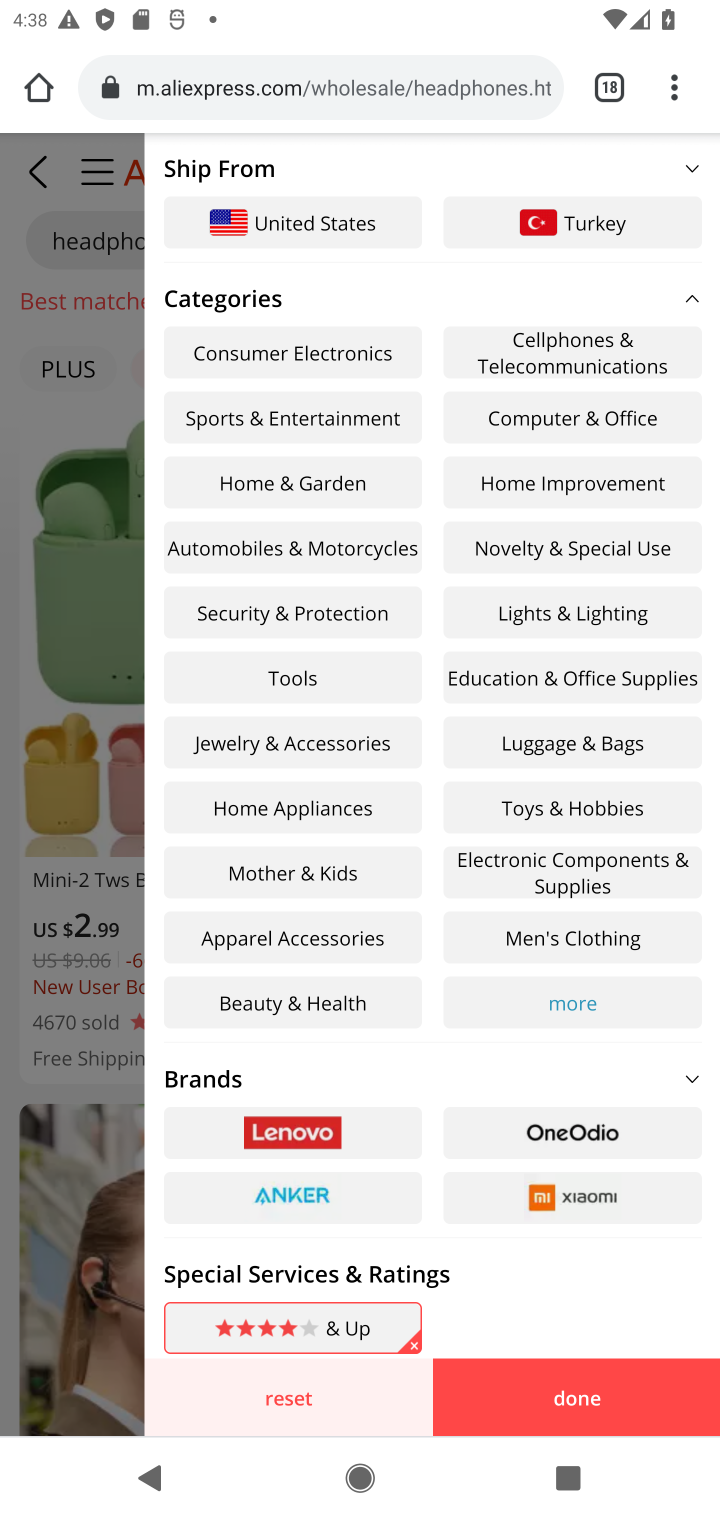
Step 30: click (573, 1405)
Your task to perform on an android device: Look up the best rated headphones on Aliexpress Image 31: 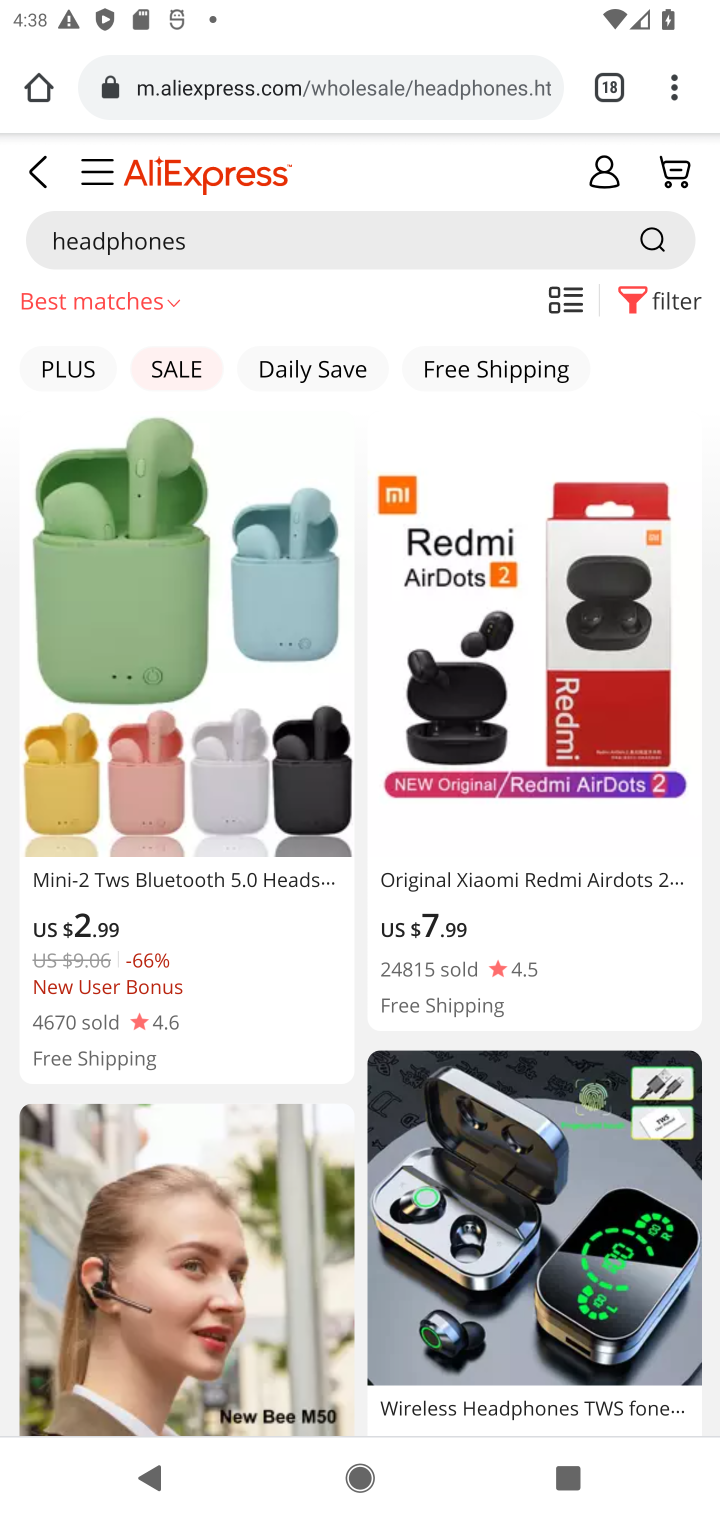
Step 31: task complete